Your task to perform on an android device: Search for vegetarian restaurants on Maps Image 0: 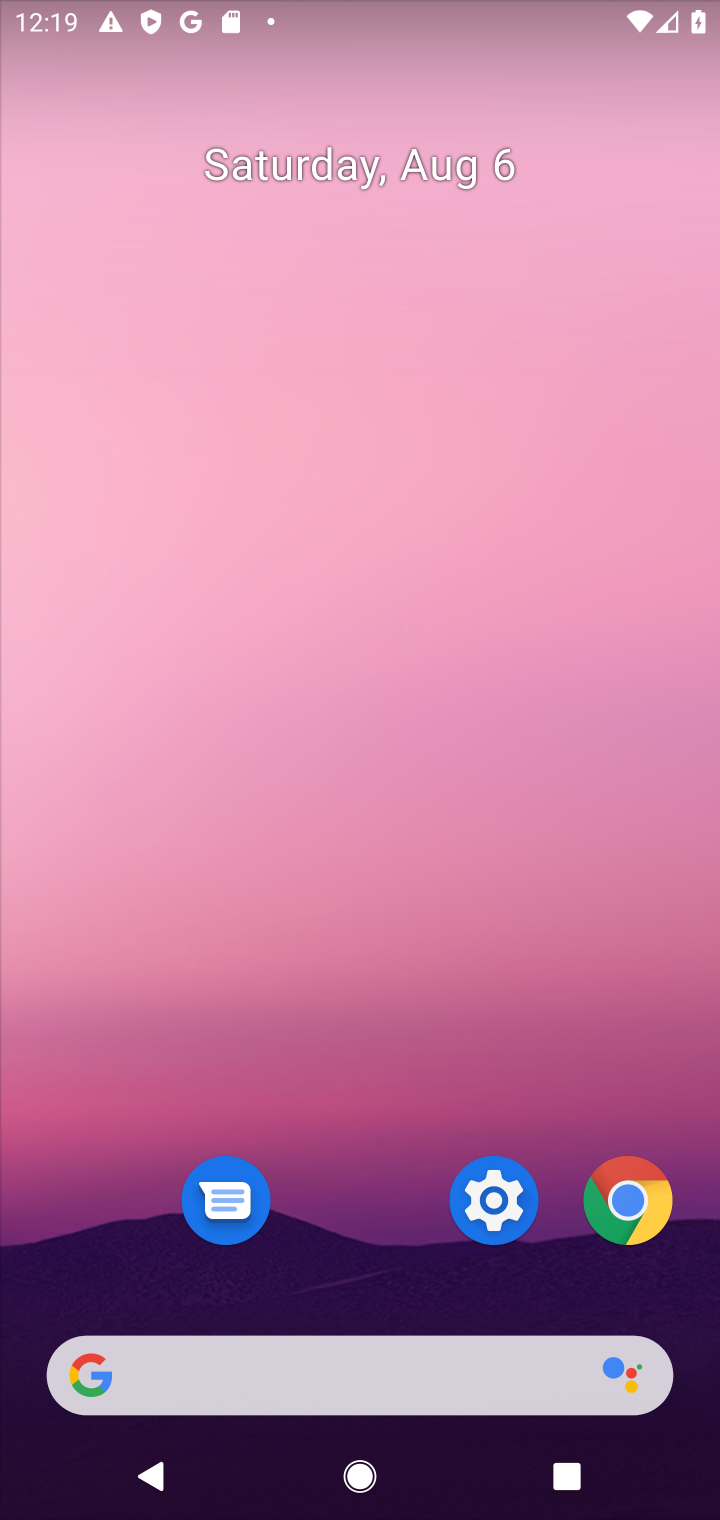
Step 0: drag from (526, 1447) to (390, 406)
Your task to perform on an android device: Search for vegetarian restaurants on Maps Image 1: 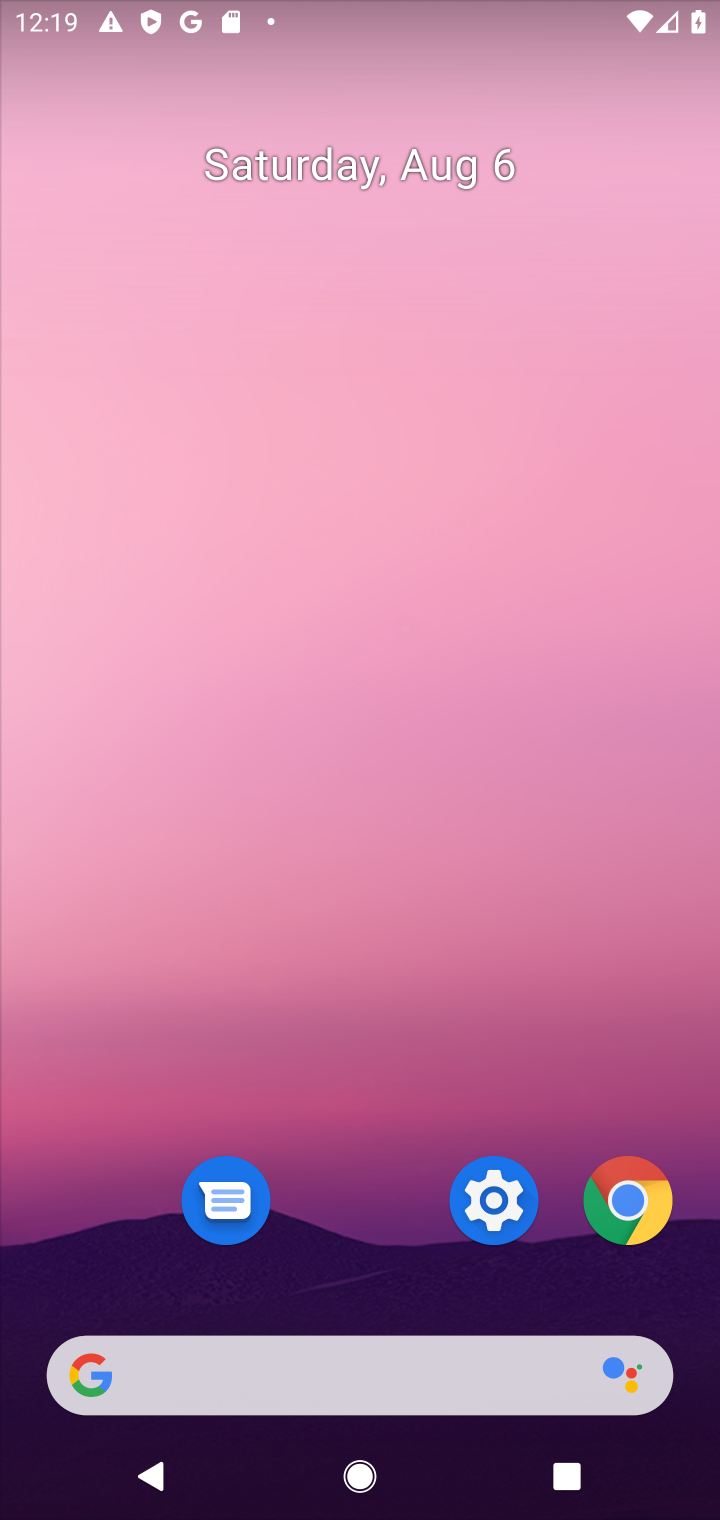
Step 1: click (383, 601)
Your task to perform on an android device: Search for vegetarian restaurants on Maps Image 2: 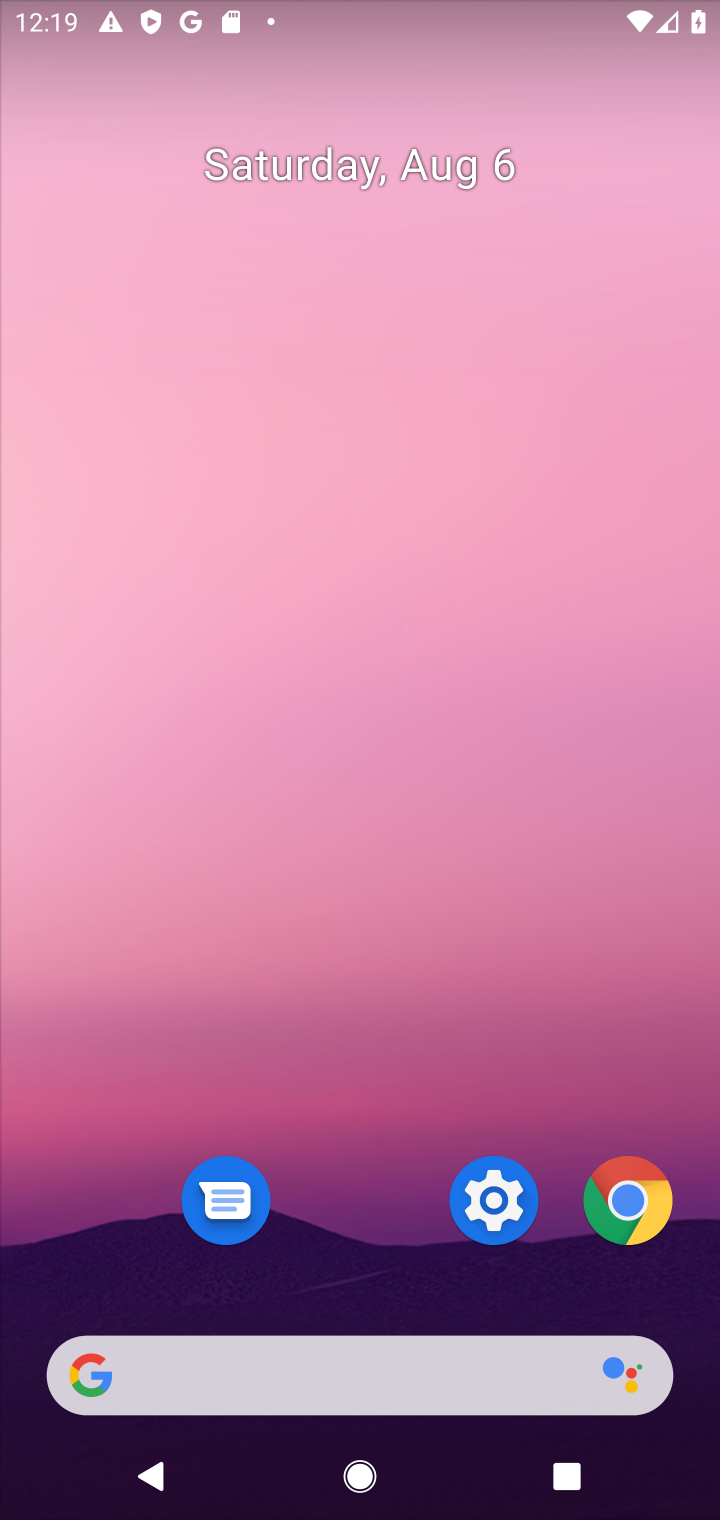
Step 2: drag from (297, 1281) to (381, 203)
Your task to perform on an android device: Search for vegetarian restaurants on Maps Image 3: 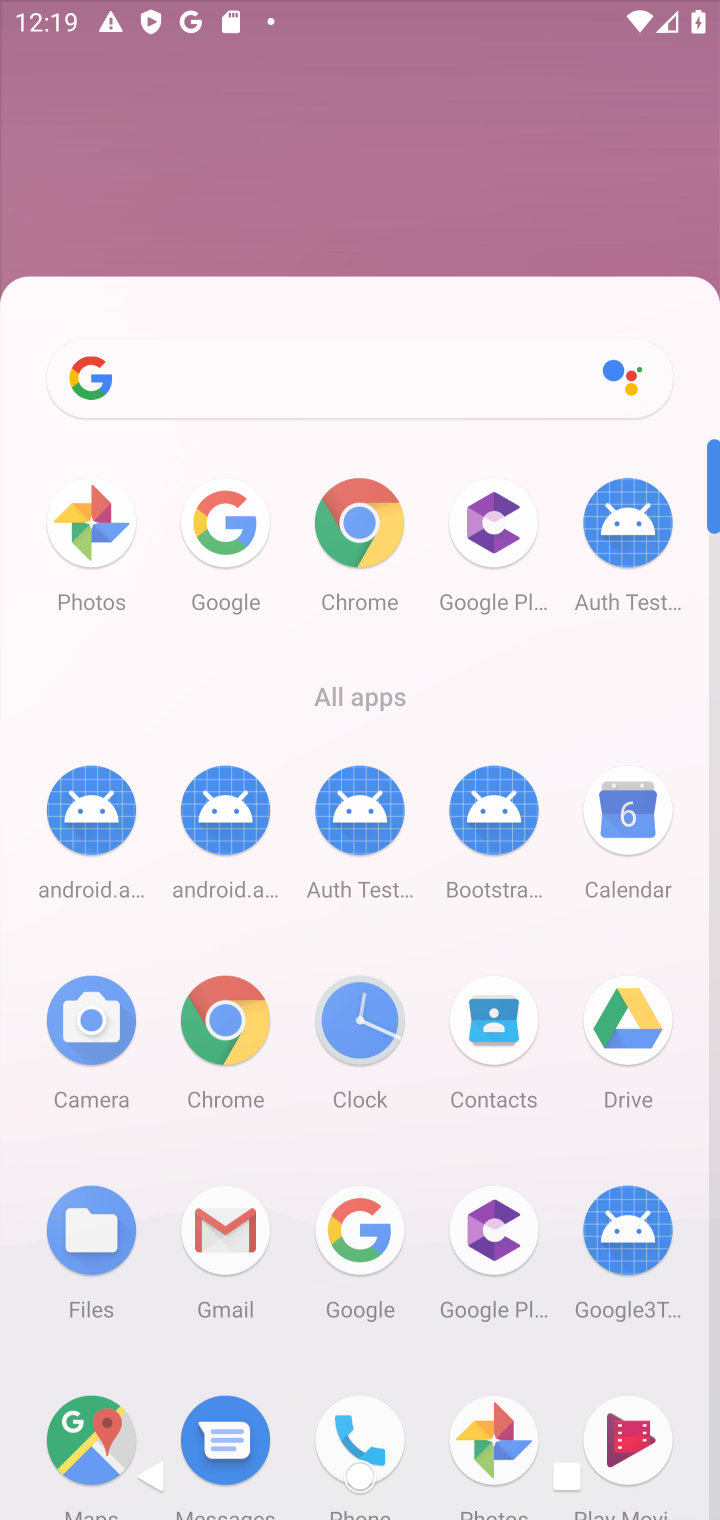
Step 3: drag from (273, 575) to (263, 442)
Your task to perform on an android device: Search for vegetarian restaurants on Maps Image 4: 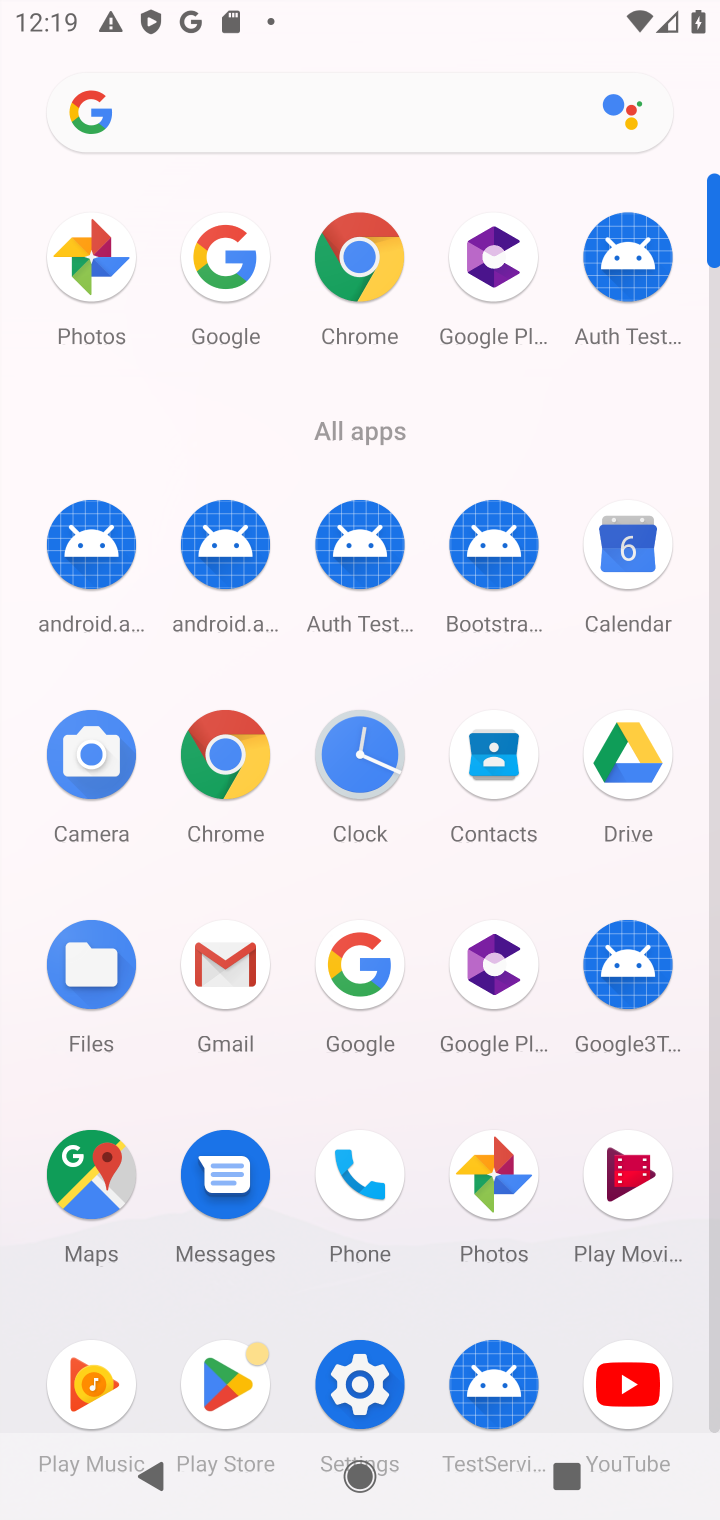
Step 4: click (91, 1155)
Your task to perform on an android device: Search for vegetarian restaurants on Maps Image 5: 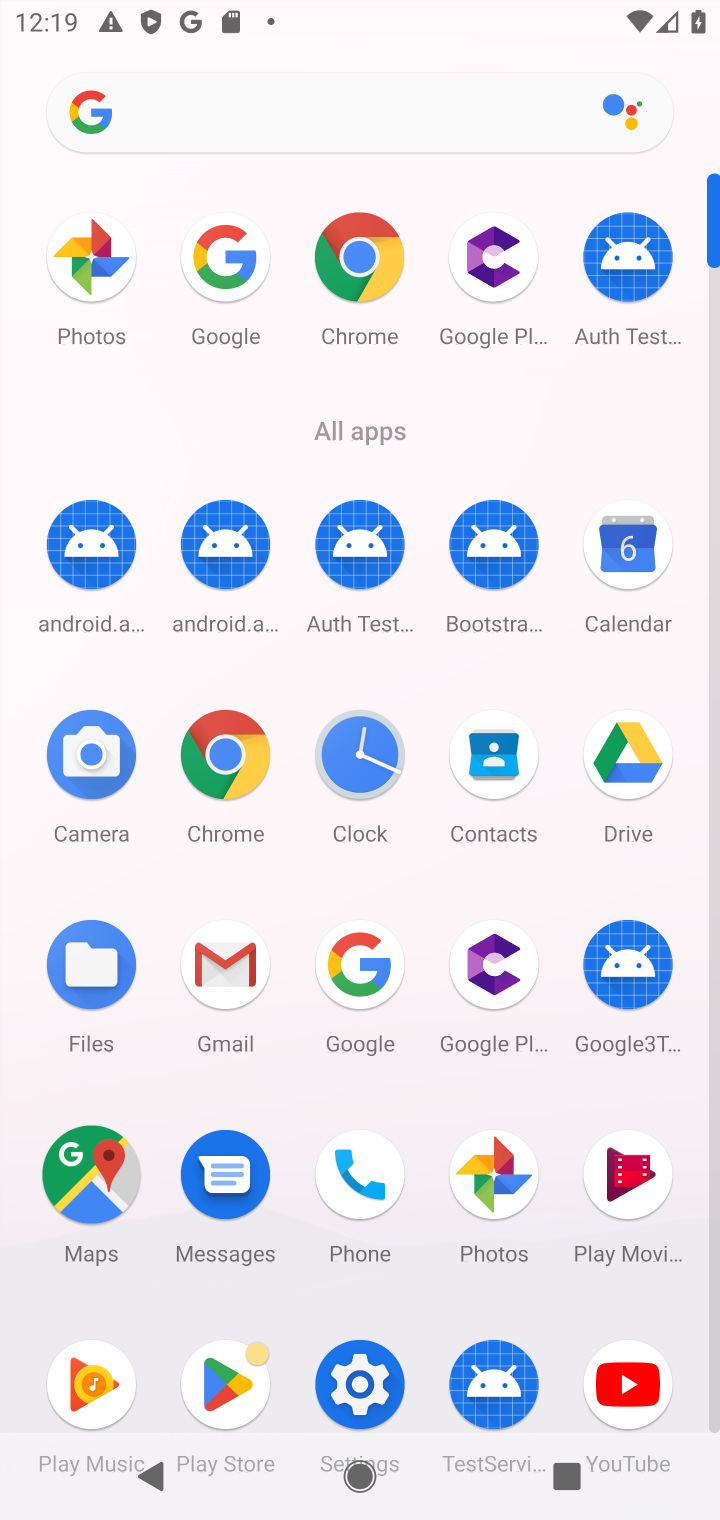
Step 5: click (117, 1213)
Your task to perform on an android device: Search for vegetarian restaurants on Maps Image 6: 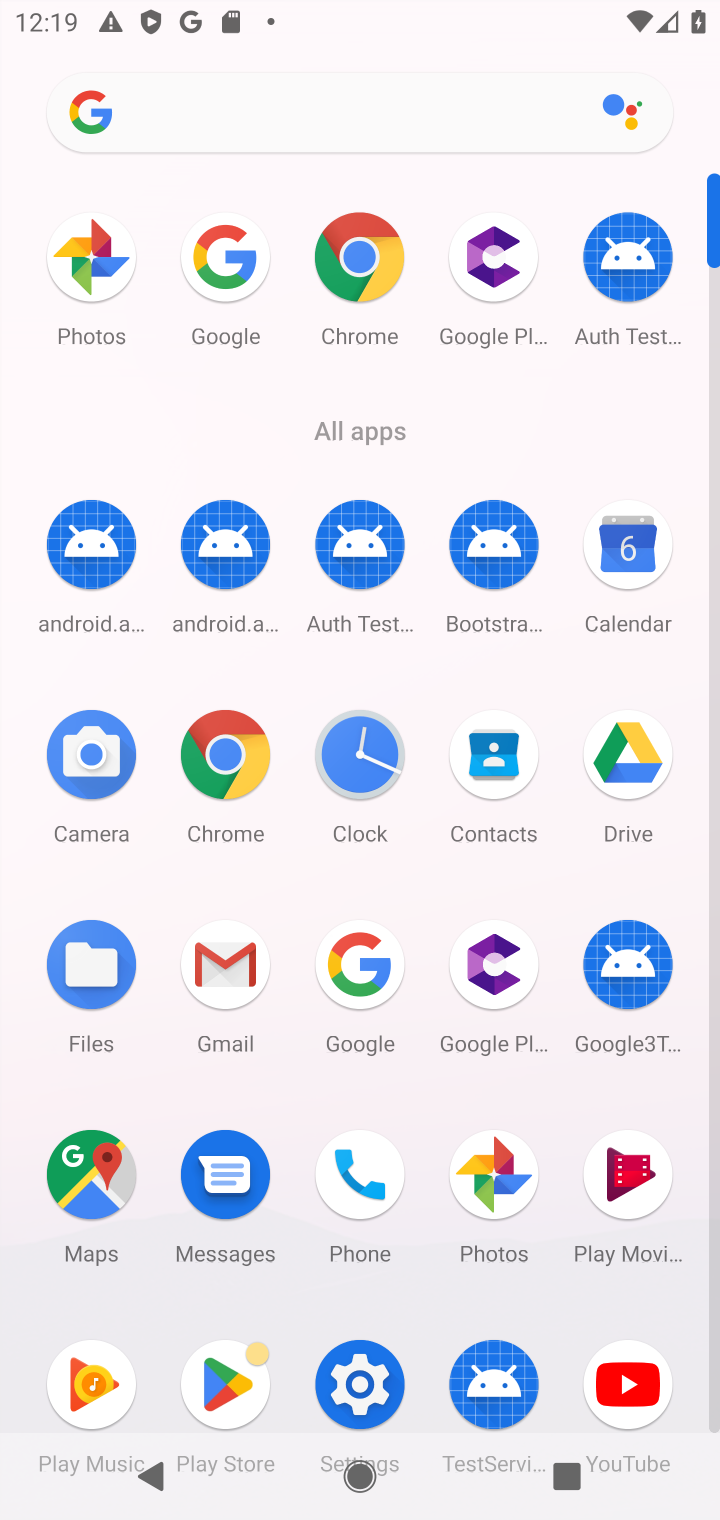
Step 6: click (64, 1172)
Your task to perform on an android device: Search for vegetarian restaurants on Maps Image 7: 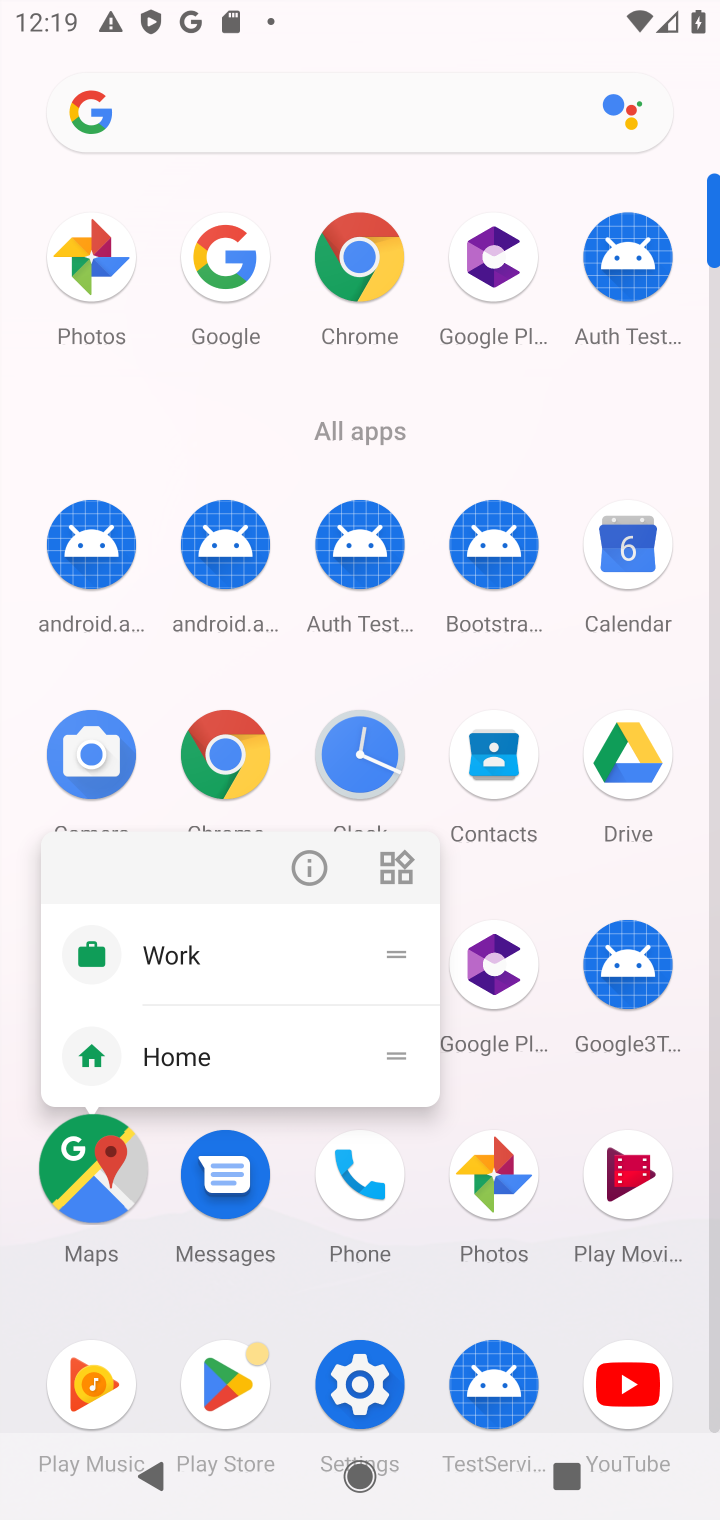
Step 7: click (61, 1166)
Your task to perform on an android device: Search for vegetarian restaurants on Maps Image 8: 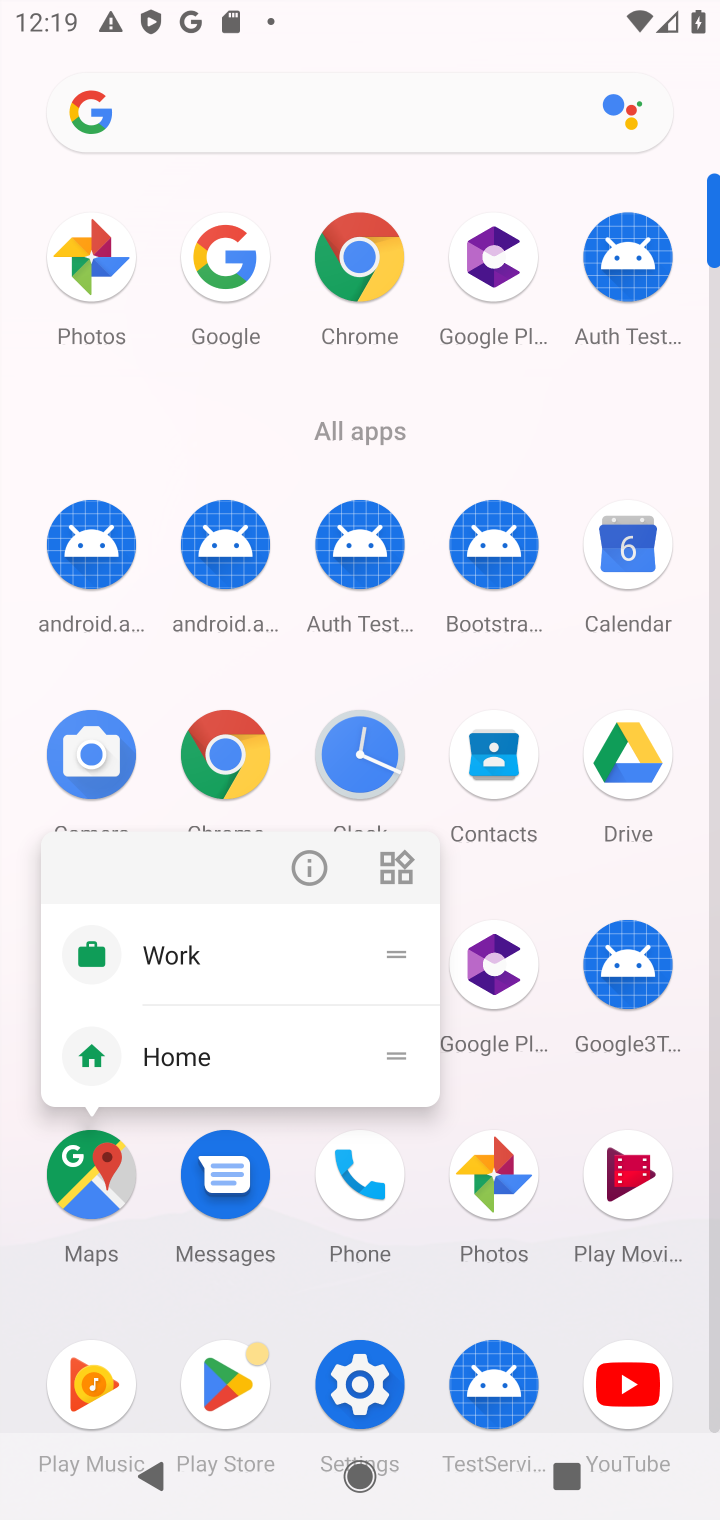
Step 8: drag from (93, 1155) to (130, 1245)
Your task to perform on an android device: Search for vegetarian restaurants on Maps Image 9: 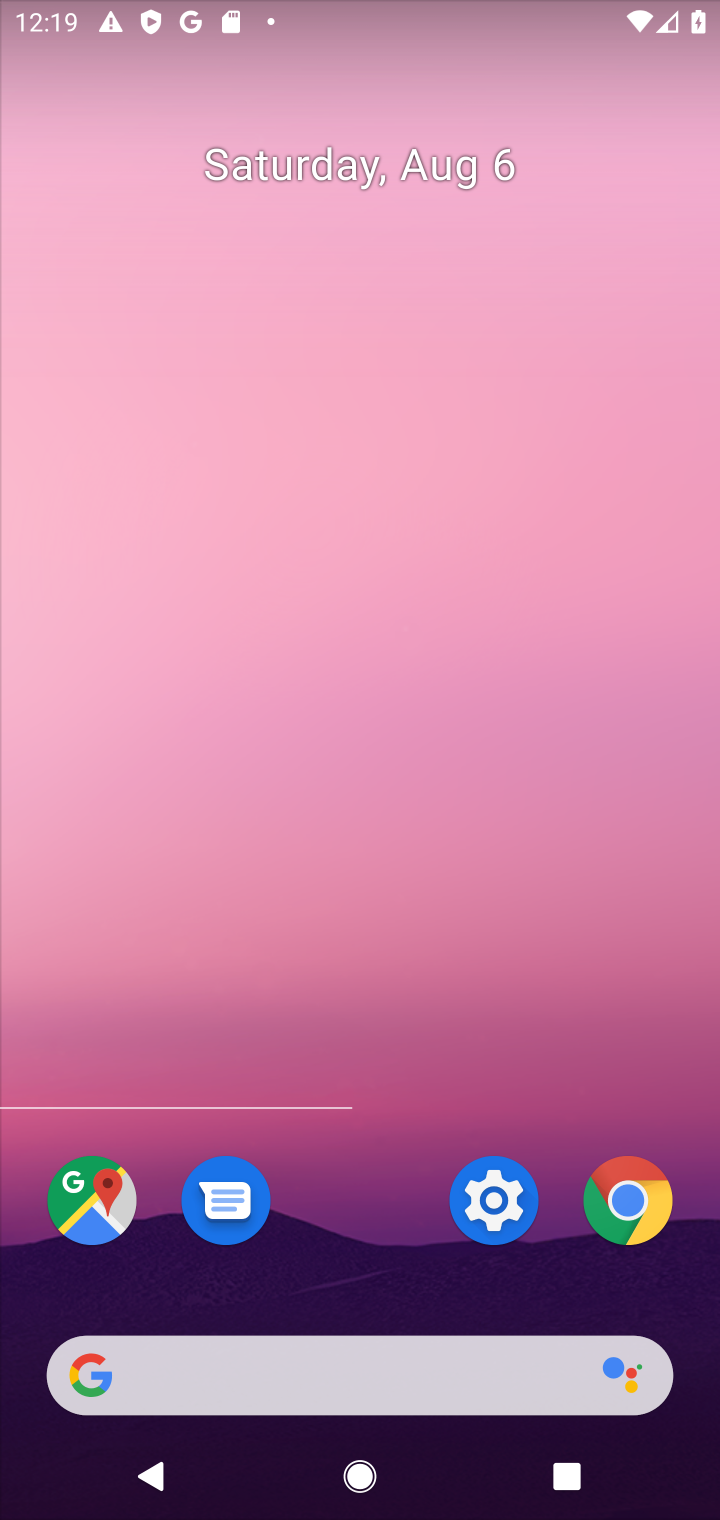
Step 9: press back button
Your task to perform on an android device: Search for vegetarian restaurants on Maps Image 10: 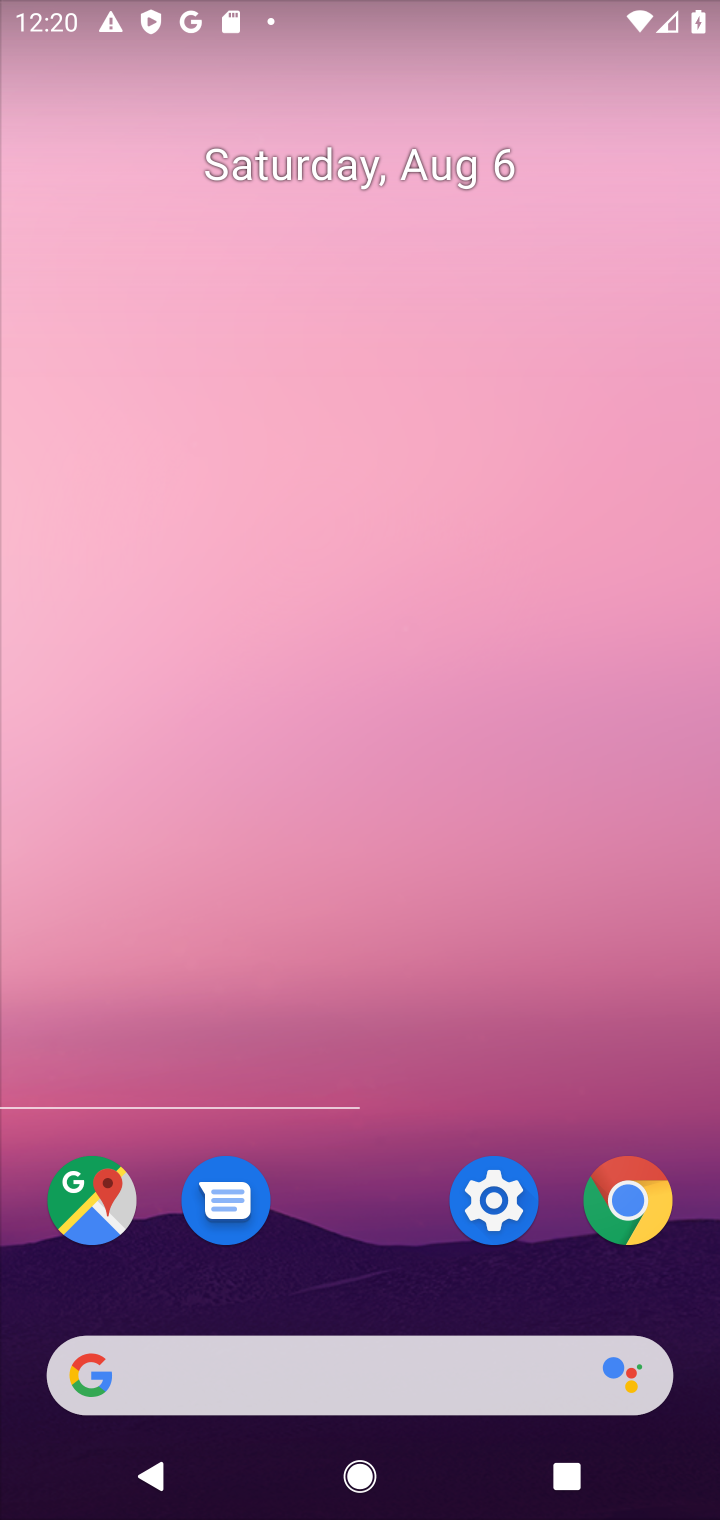
Step 10: click (135, 556)
Your task to perform on an android device: Search for vegetarian restaurants on Maps Image 11: 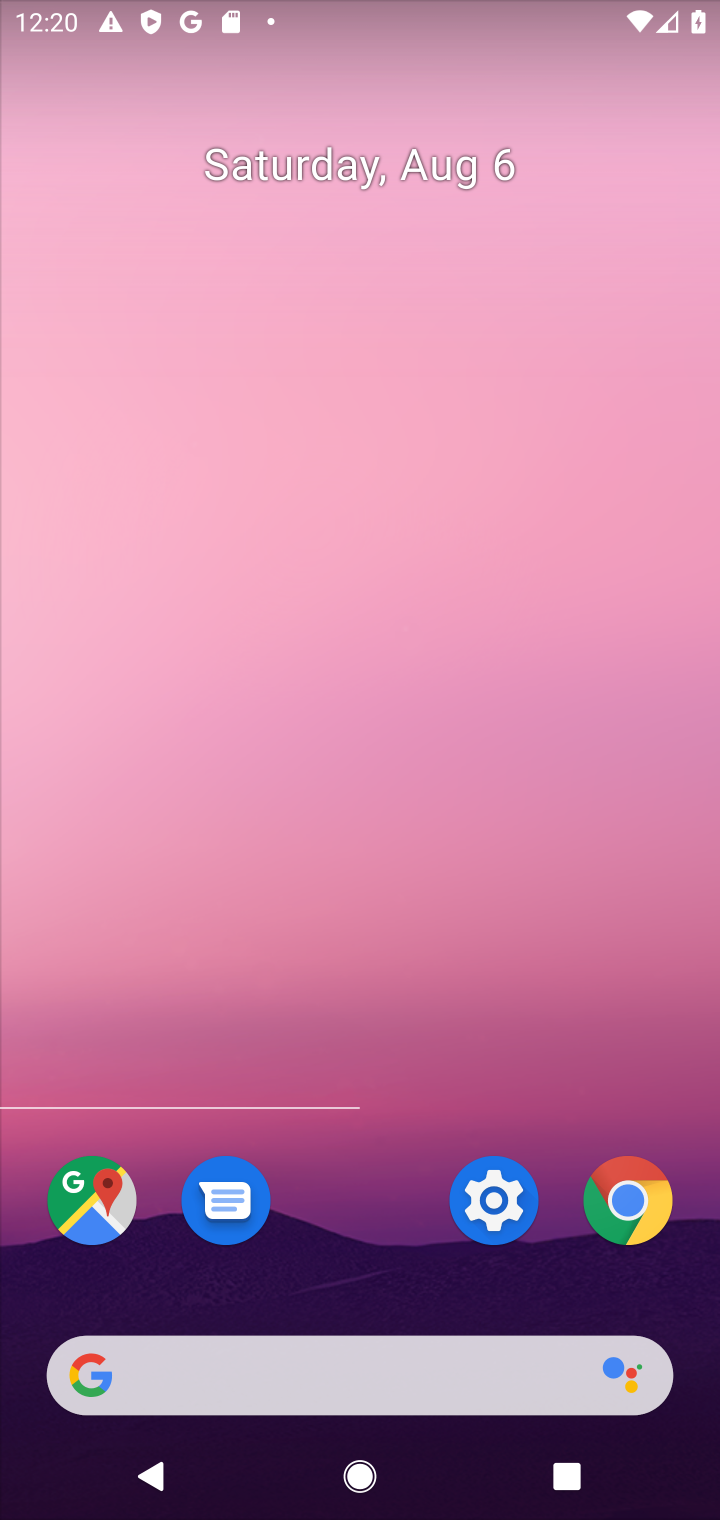
Step 11: drag from (413, 1279) to (299, 667)
Your task to perform on an android device: Search for vegetarian restaurants on Maps Image 12: 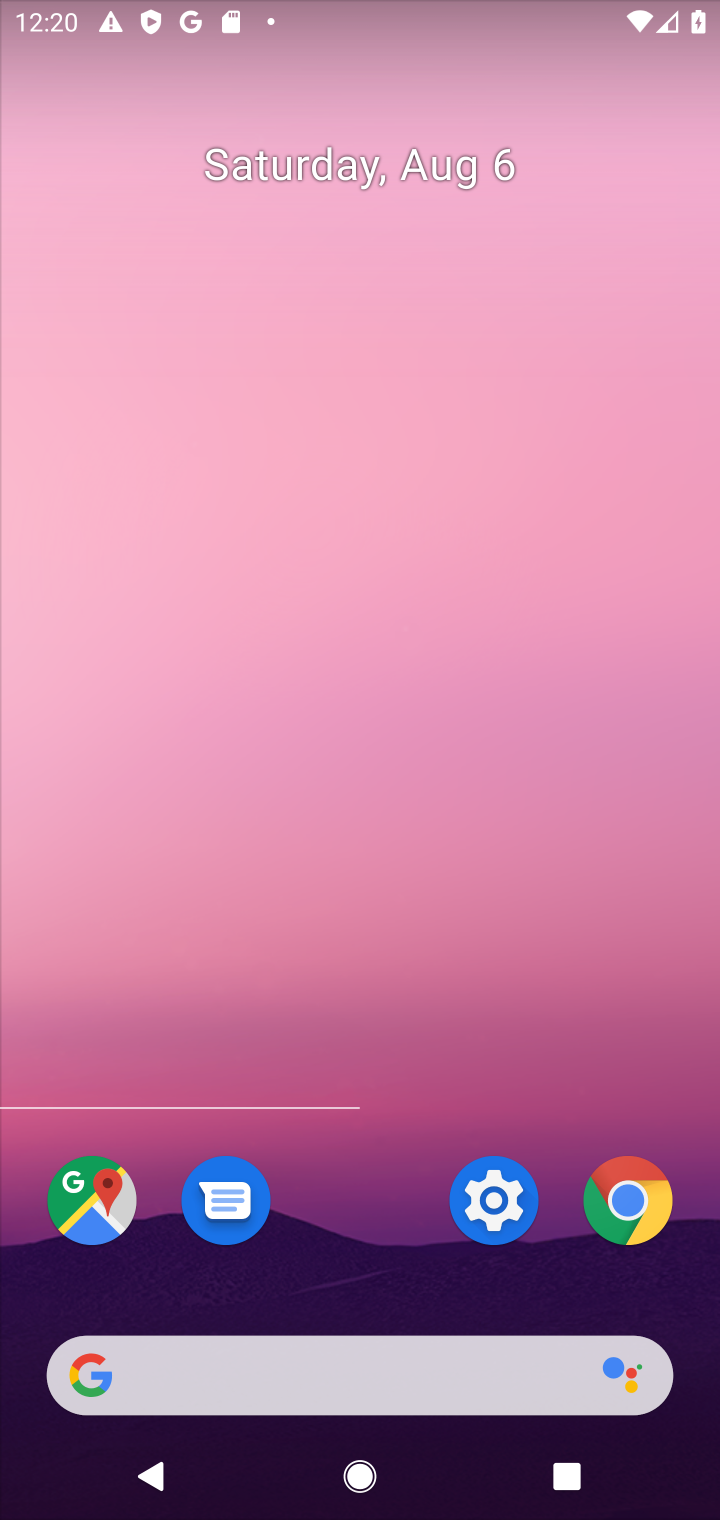
Step 12: drag from (280, 990) to (197, 240)
Your task to perform on an android device: Search for vegetarian restaurants on Maps Image 13: 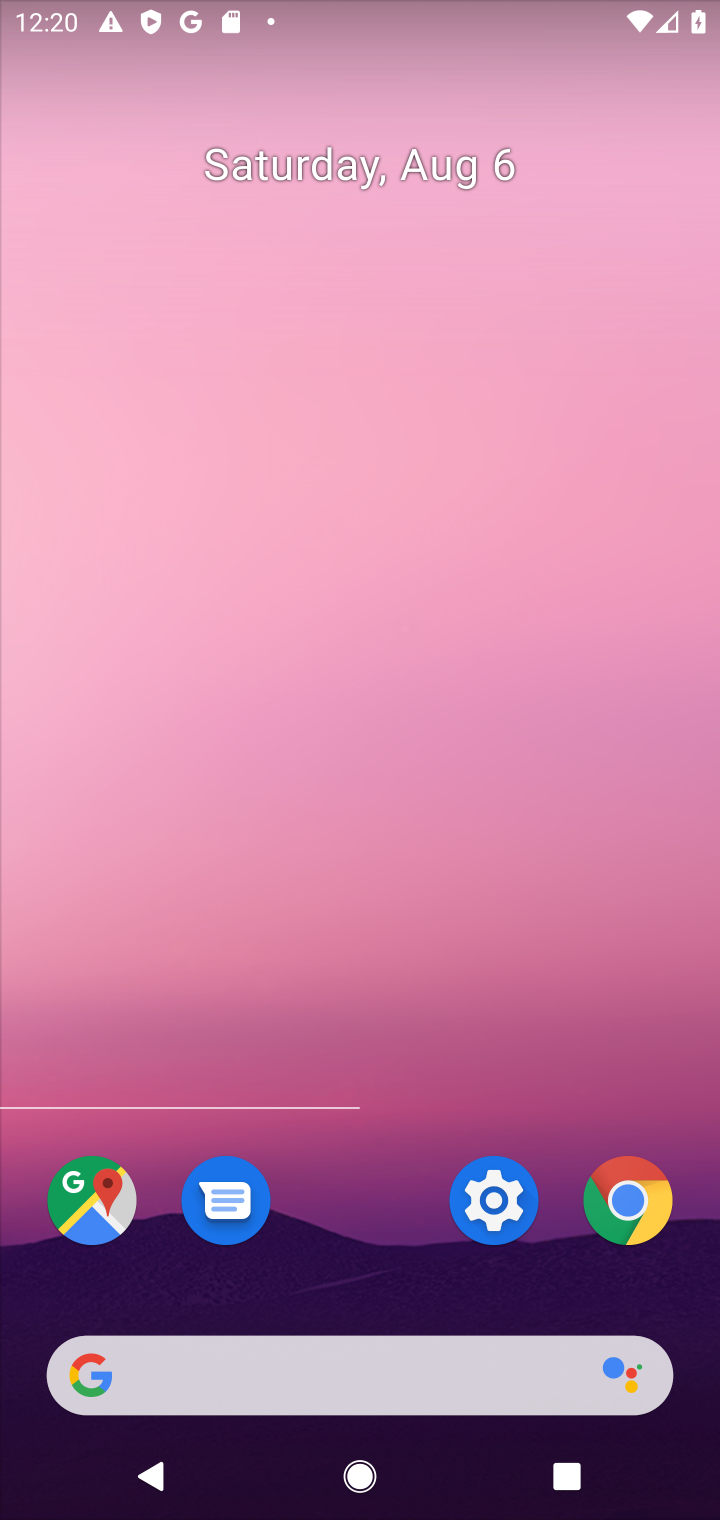
Step 13: click (191, 294)
Your task to perform on an android device: Search for vegetarian restaurants on Maps Image 14: 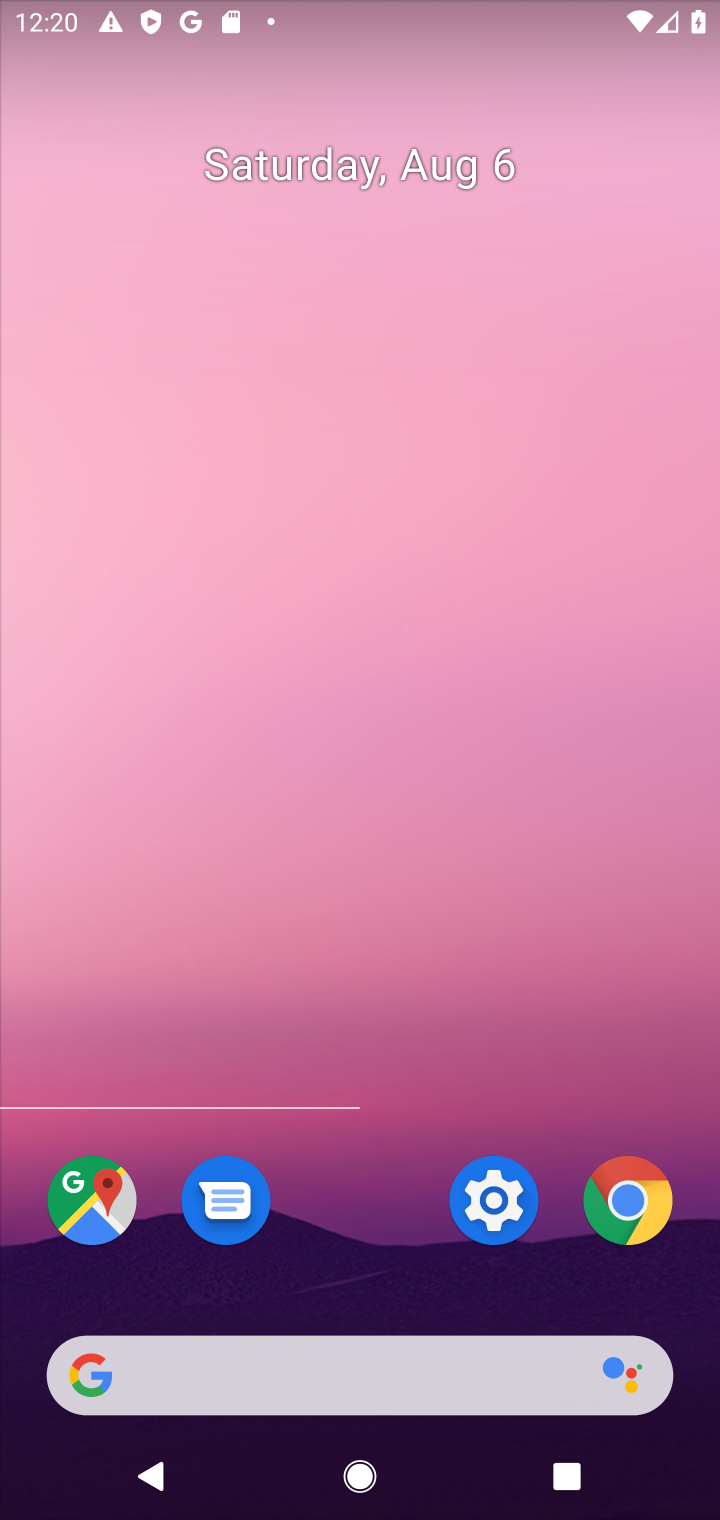
Step 14: drag from (259, 70) to (387, 163)
Your task to perform on an android device: Search for vegetarian restaurants on Maps Image 15: 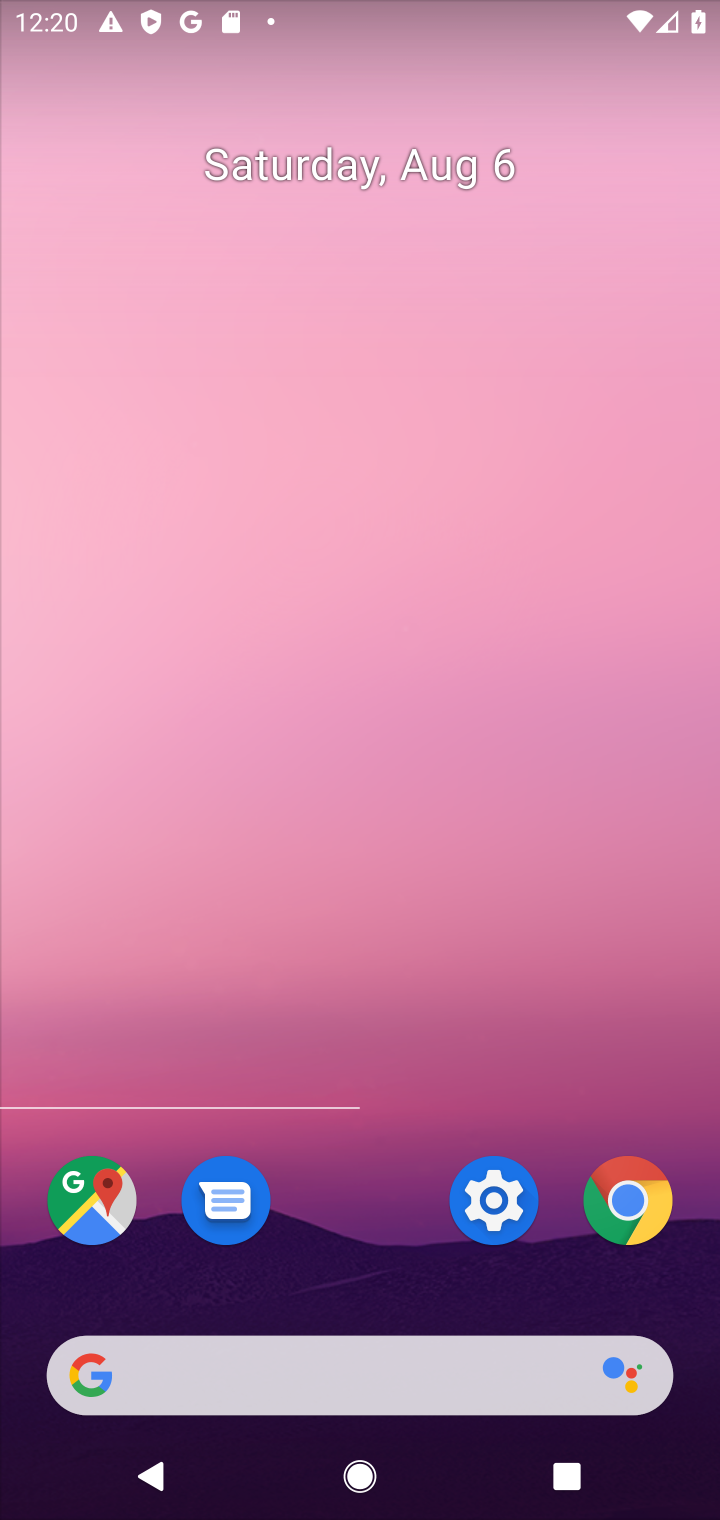
Step 15: drag from (225, 992) to (311, 111)
Your task to perform on an android device: Search for vegetarian restaurants on Maps Image 16: 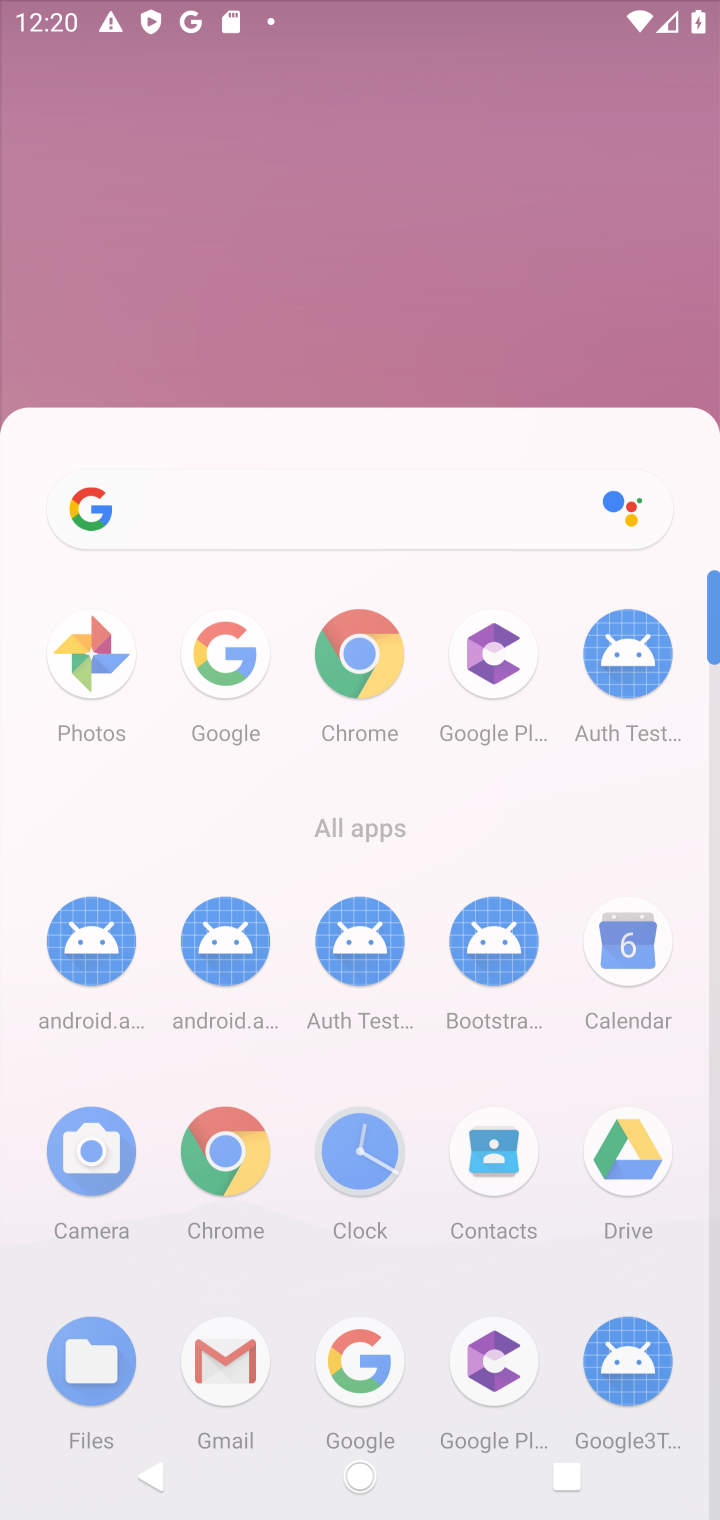
Step 16: drag from (311, 968) to (192, 380)
Your task to perform on an android device: Search for vegetarian restaurants on Maps Image 17: 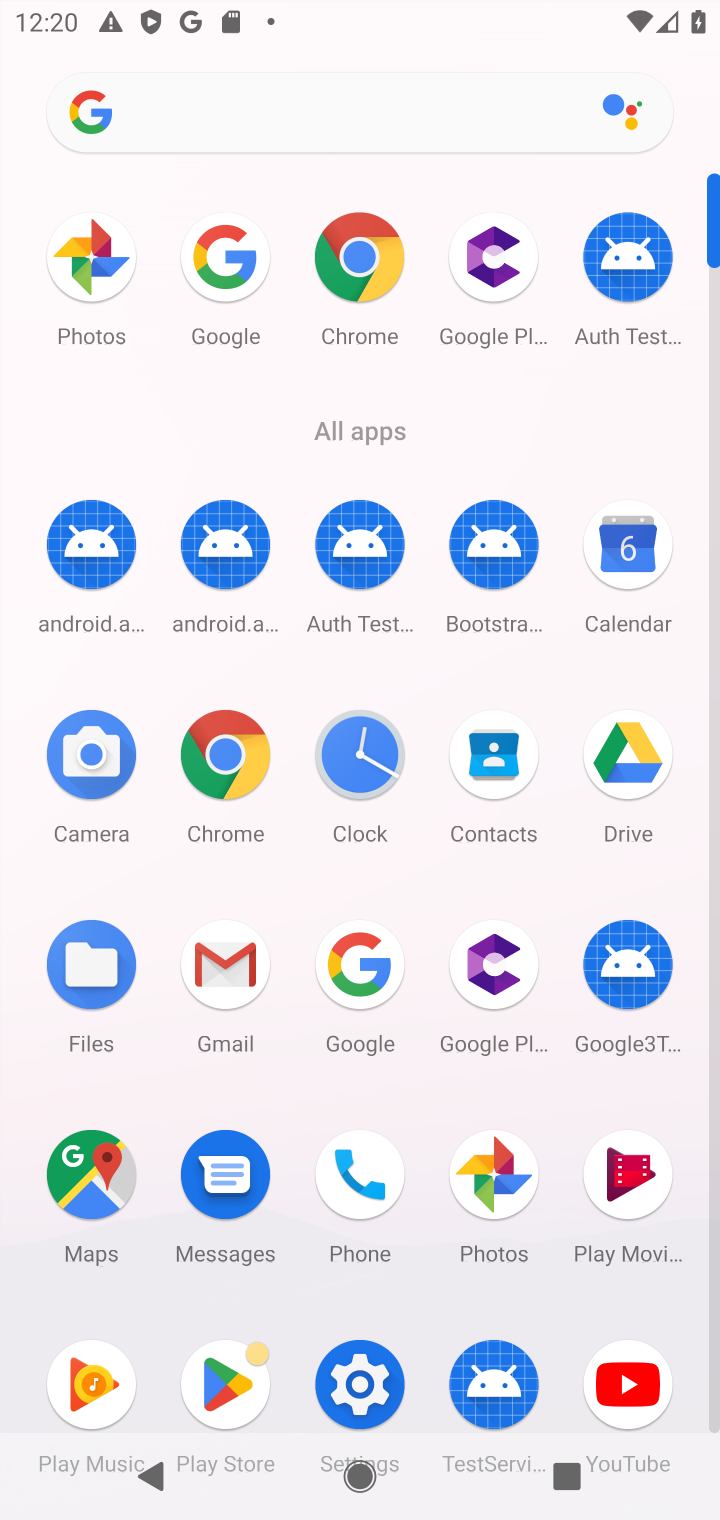
Step 17: click (125, 1186)
Your task to perform on an android device: Search for vegetarian restaurants on Maps Image 18: 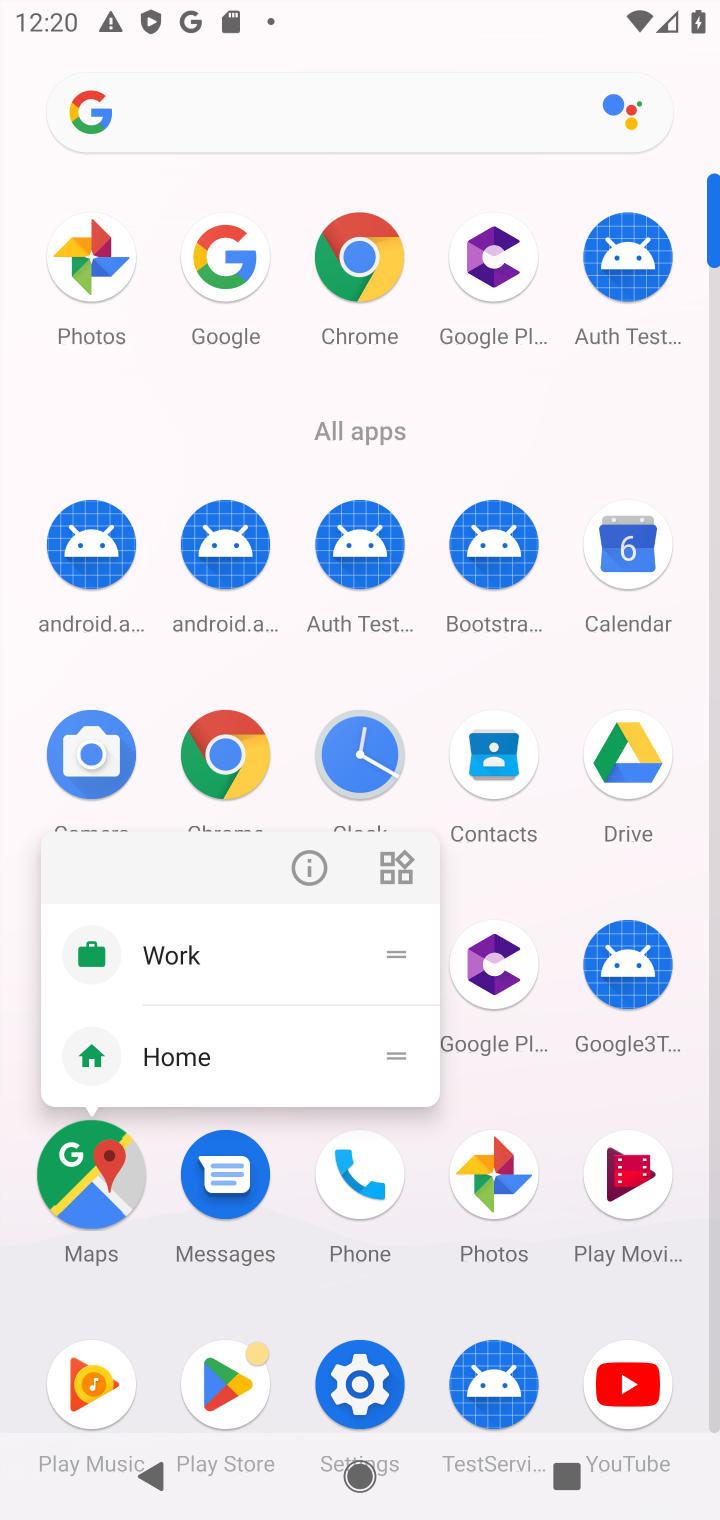
Step 18: click (110, 1177)
Your task to perform on an android device: Search for vegetarian restaurants on Maps Image 19: 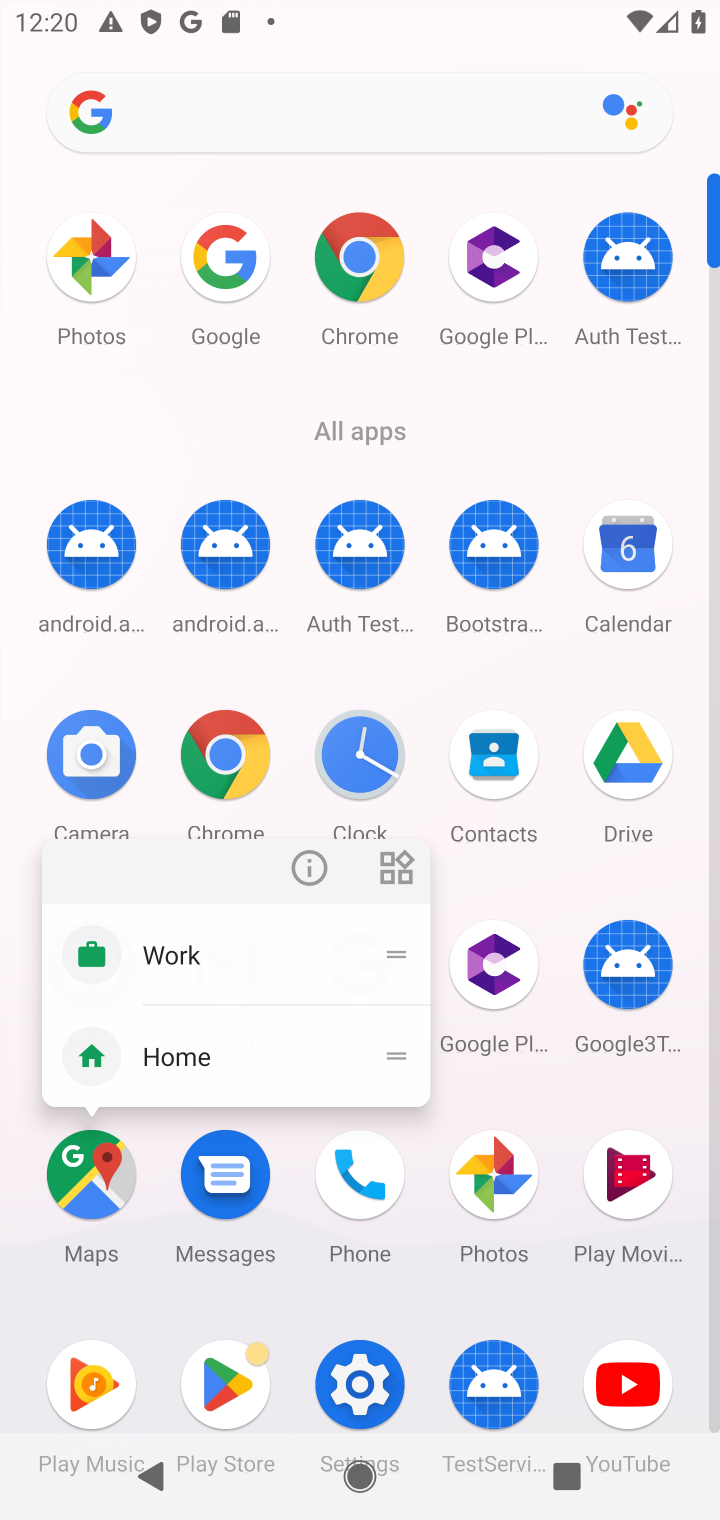
Step 19: click (110, 1177)
Your task to perform on an android device: Search for vegetarian restaurants on Maps Image 20: 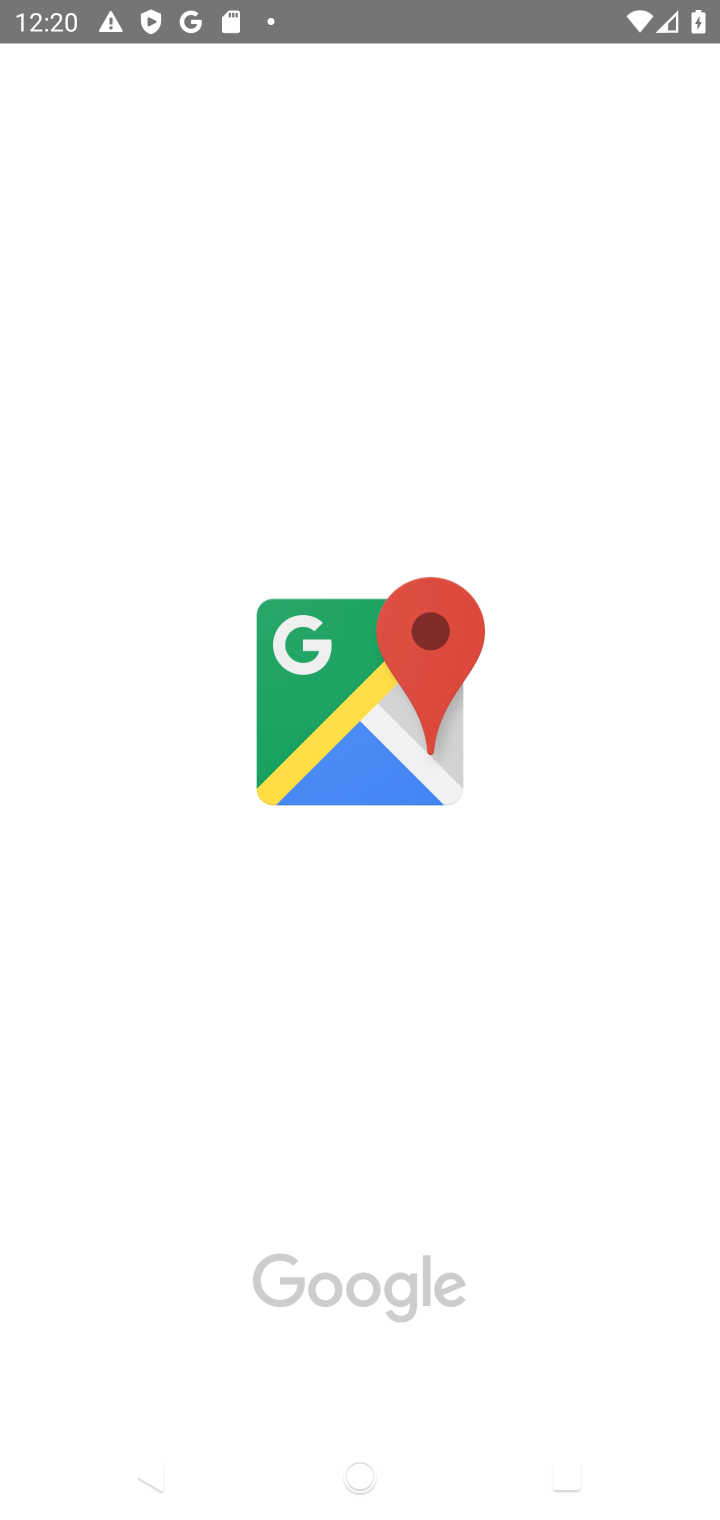
Step 20: click (102, 1184)
Your task to perform on an android device: Search for vegetarian restaurants on Maps Image 21: 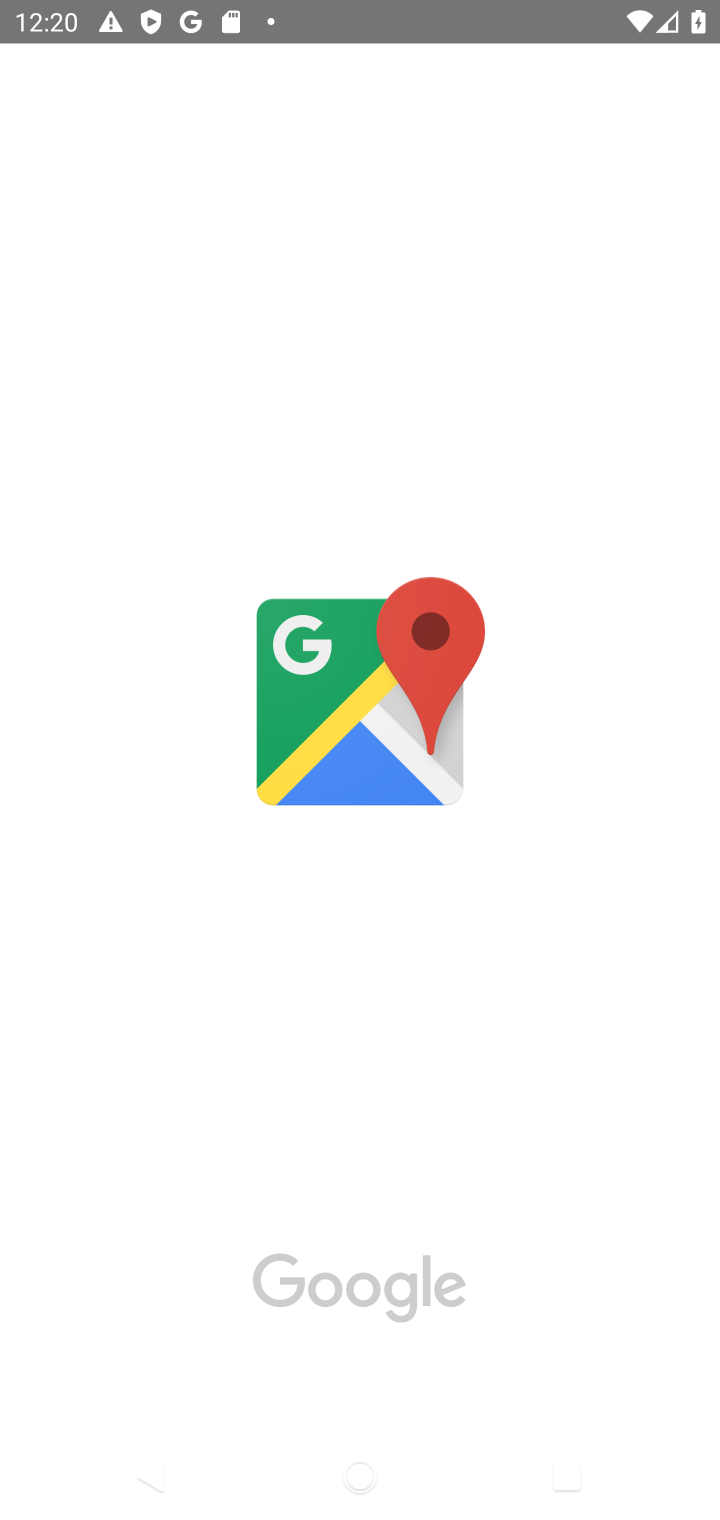
Step 21: click (352, 723)
Your task to perform on an android device: Search for vegetarian restaurants on Maps Image 22: 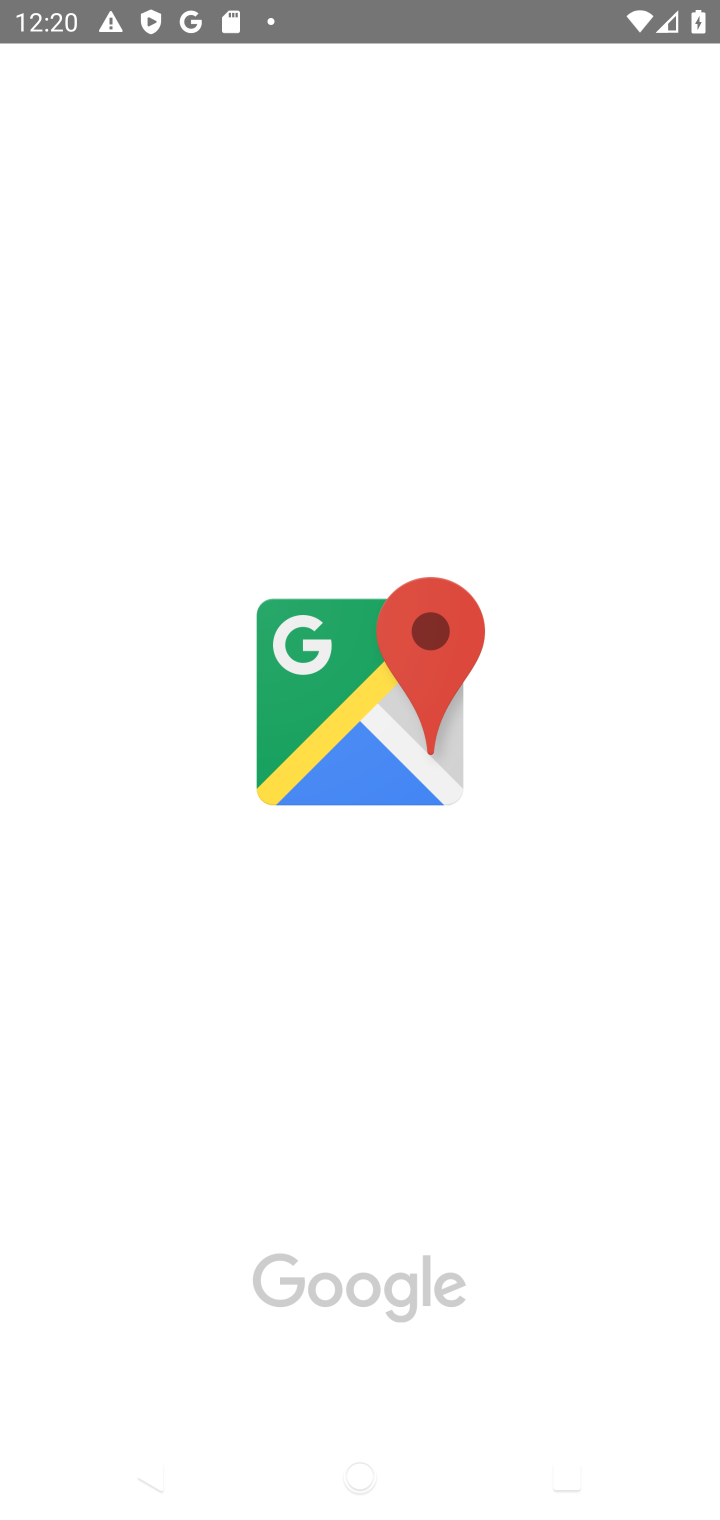
Step 22: click (380, 684)
Your task to perform on an android device: Search for vegetarian restaurants on Maps Image 23: 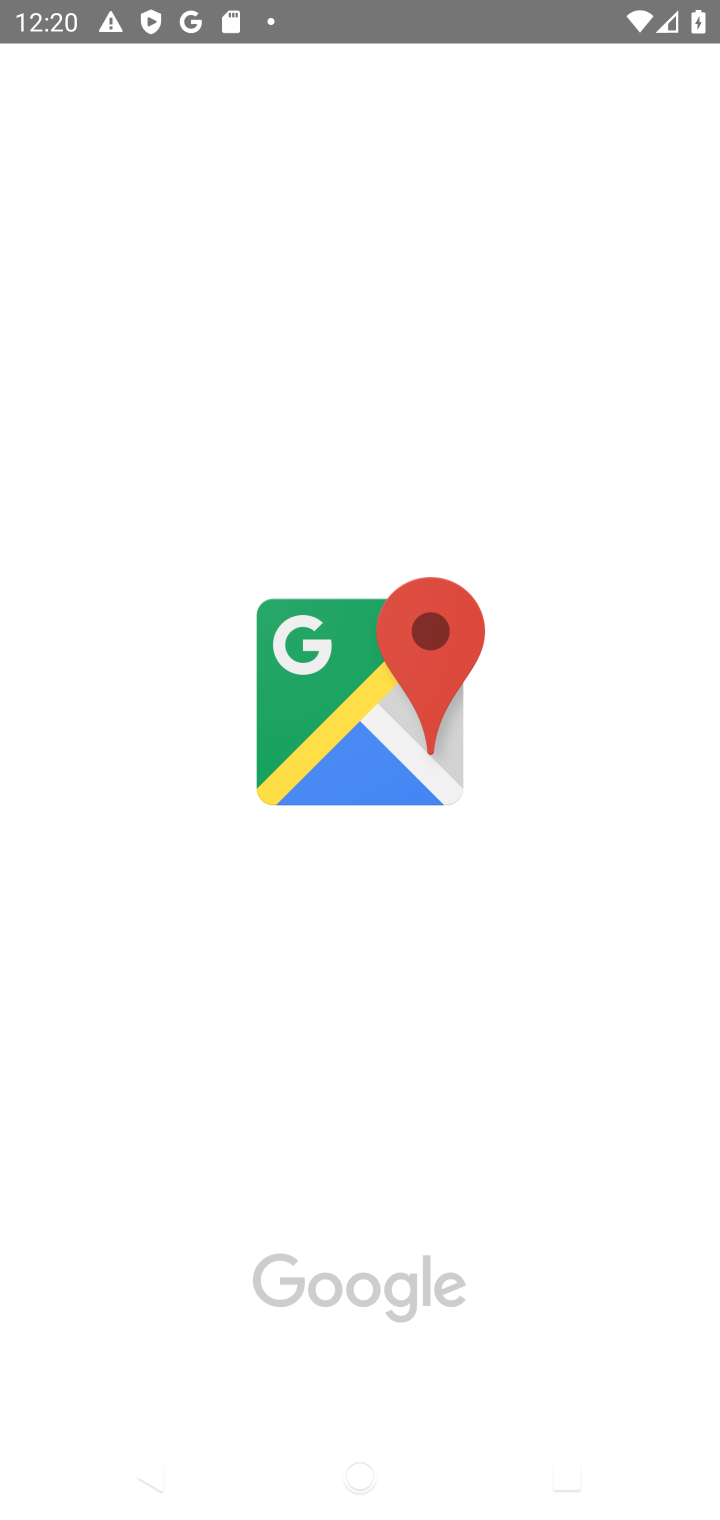
Step 23: click (380, 684)
Your task to perform on an android device: Search for vegetarian restaurants on Maps Image 24: 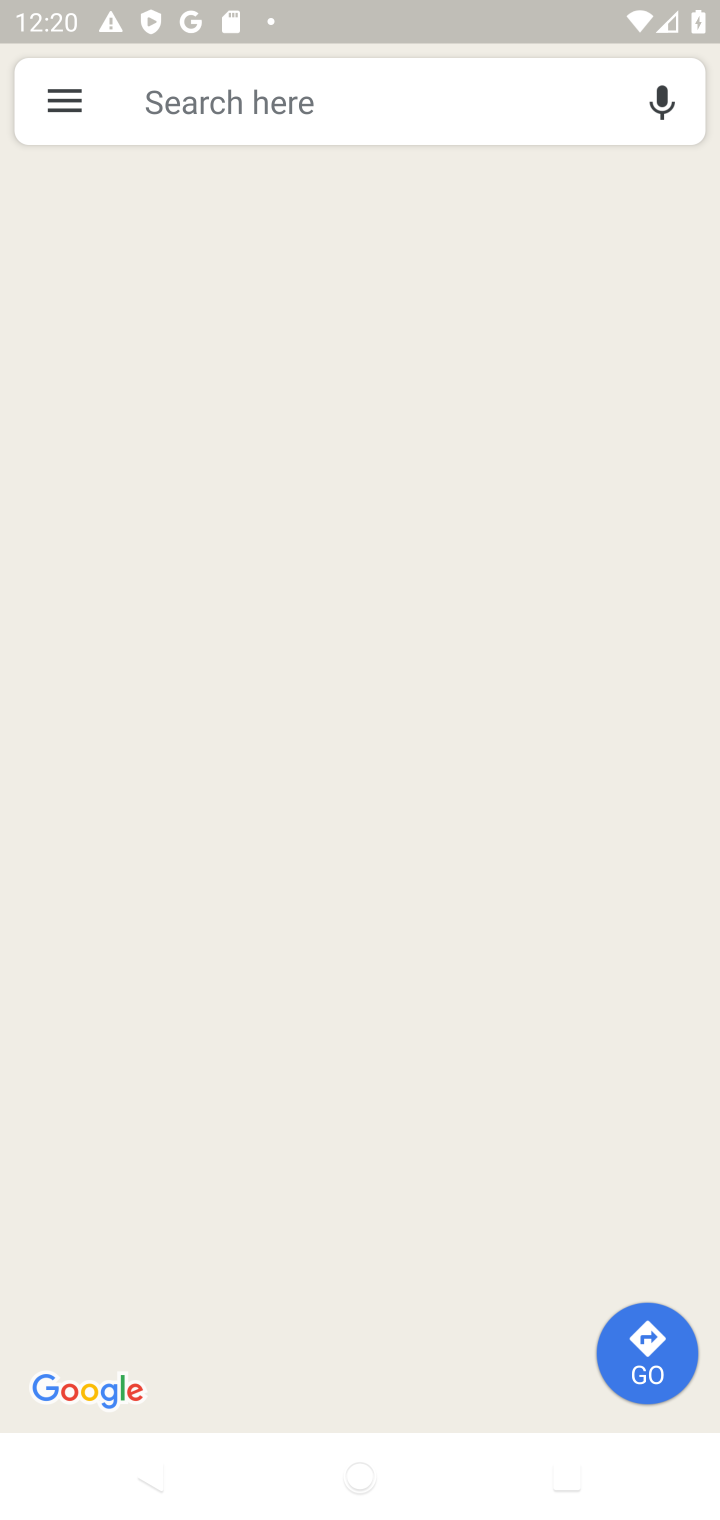
Step 24: click (410, 677)
Your task to perform on an android device: Search for vegetarian restaurants on Maps Image 25: 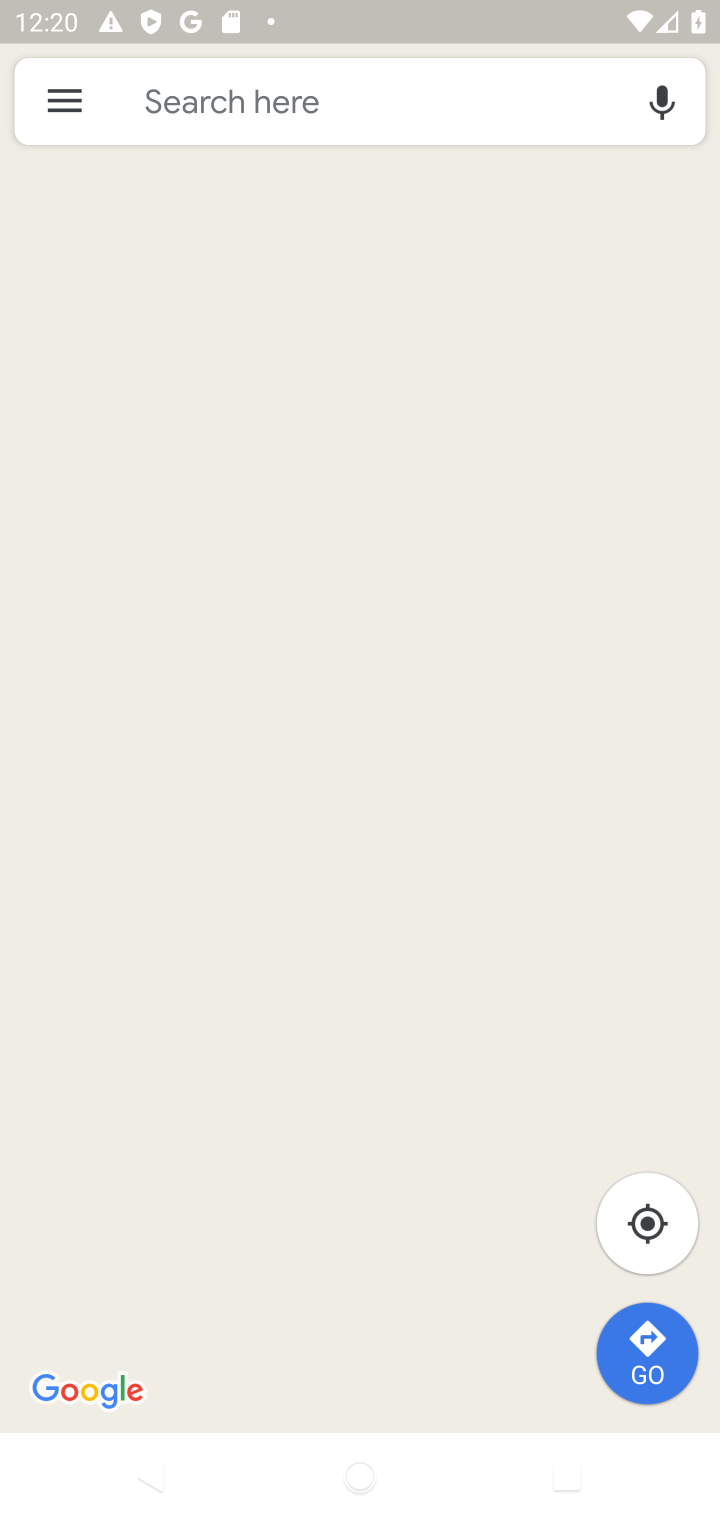
Step 25: click (268, 95)
Your task to perform on an android device: Search for vegetarian restaurants on Maps Image 26: 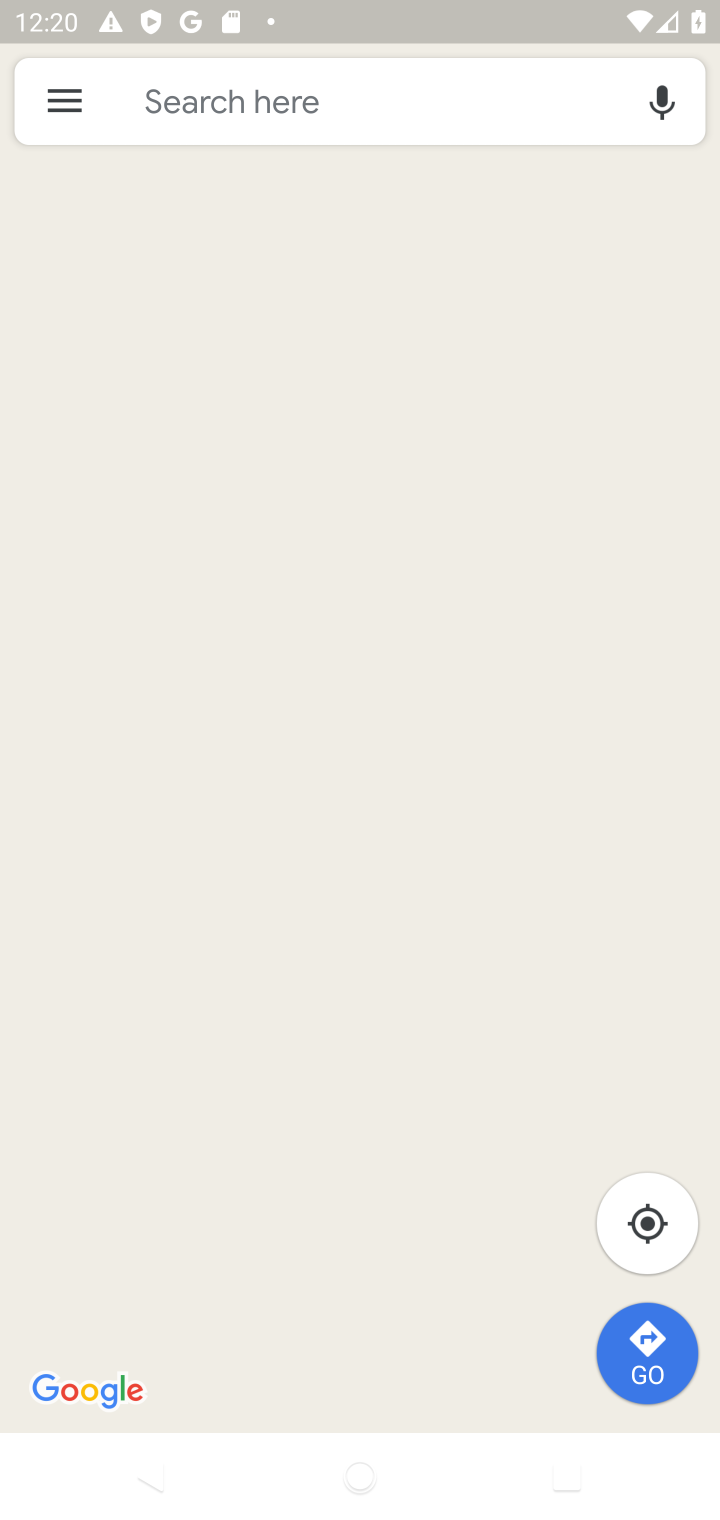
Step 26: click (268, 95)
Your task to perform on an android device: Search for vegetarian restaurants on Maps Image 27: 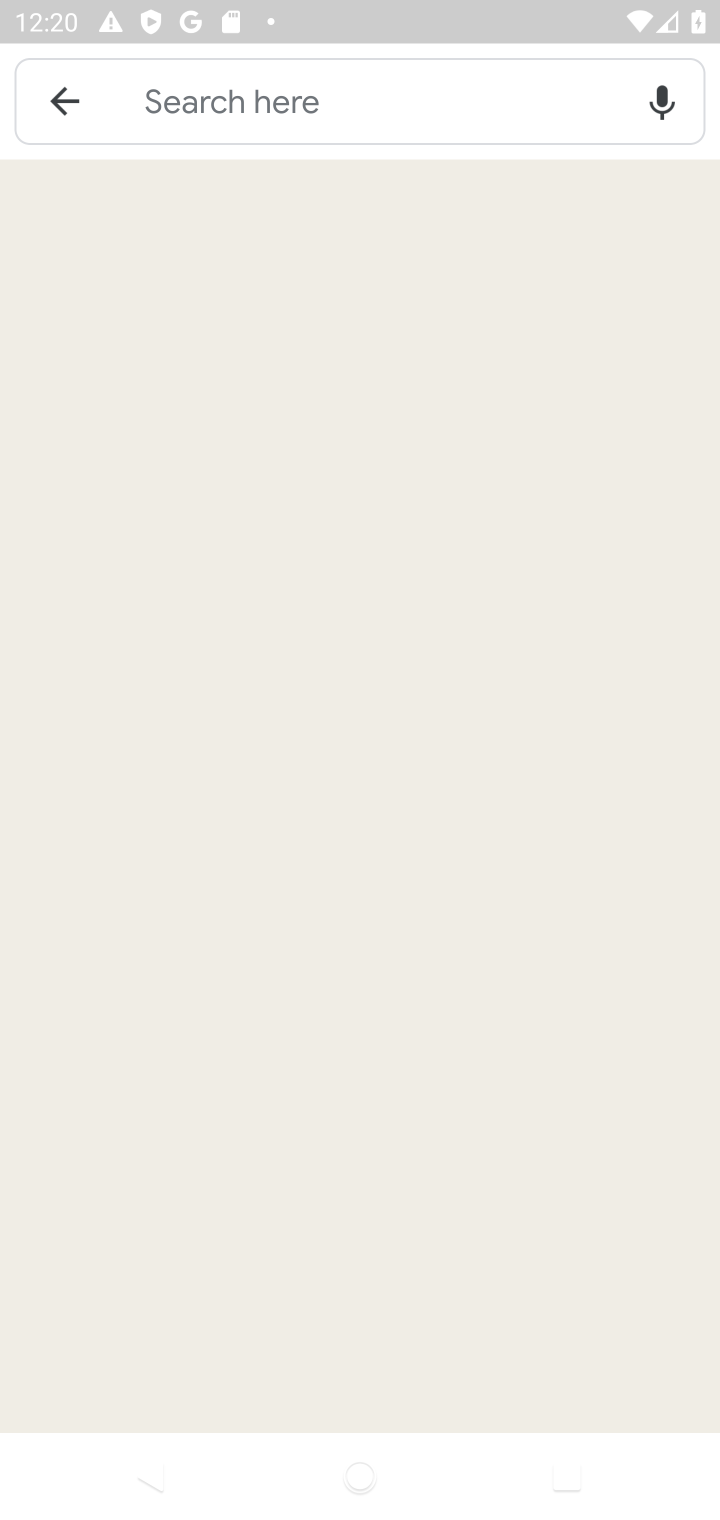
Step 27: click (145, 107)
Your task to perform on an android device: Search for vegetarian restaurants on Maps Image 28: 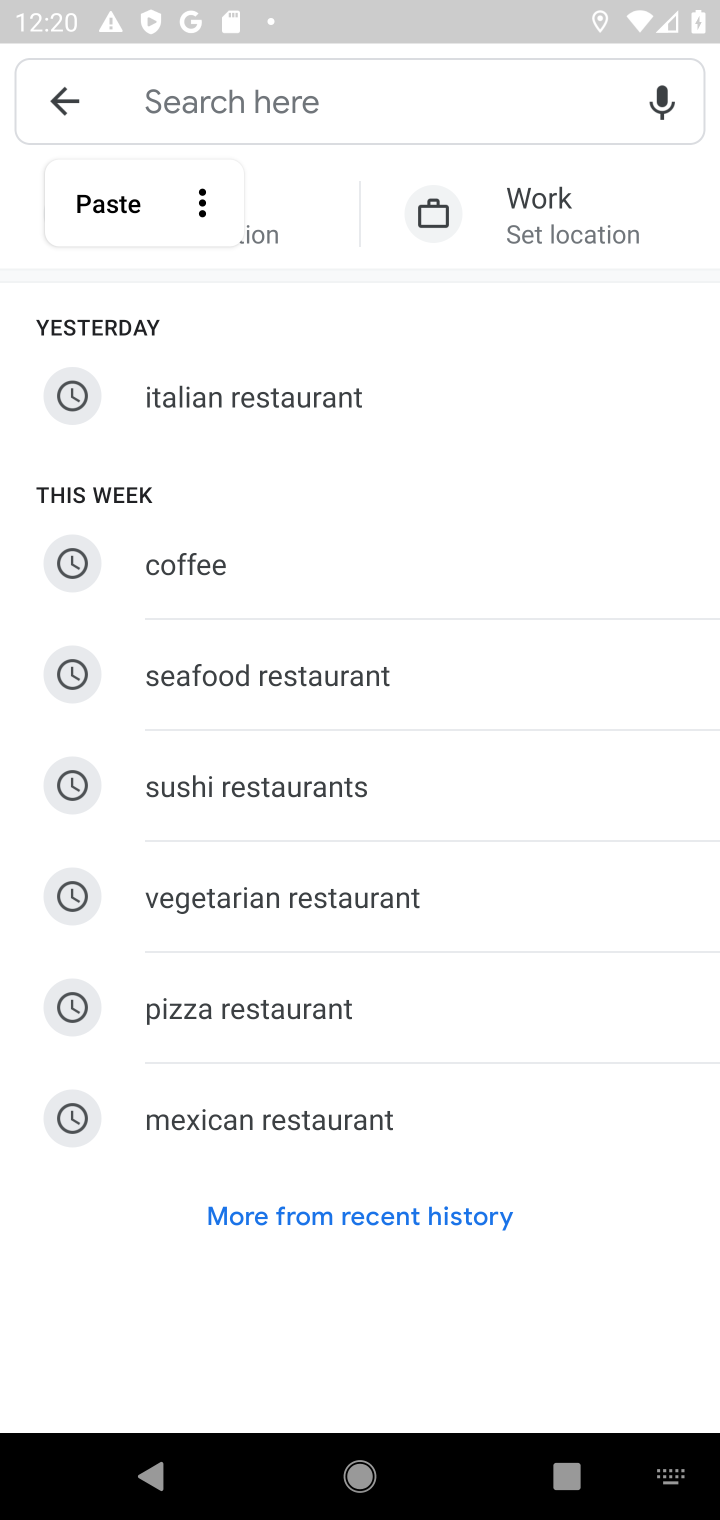
Step 28: click (248, 894)
Your task to perform on an android device: Search for vegetarian restaurants on Maps Image 29: 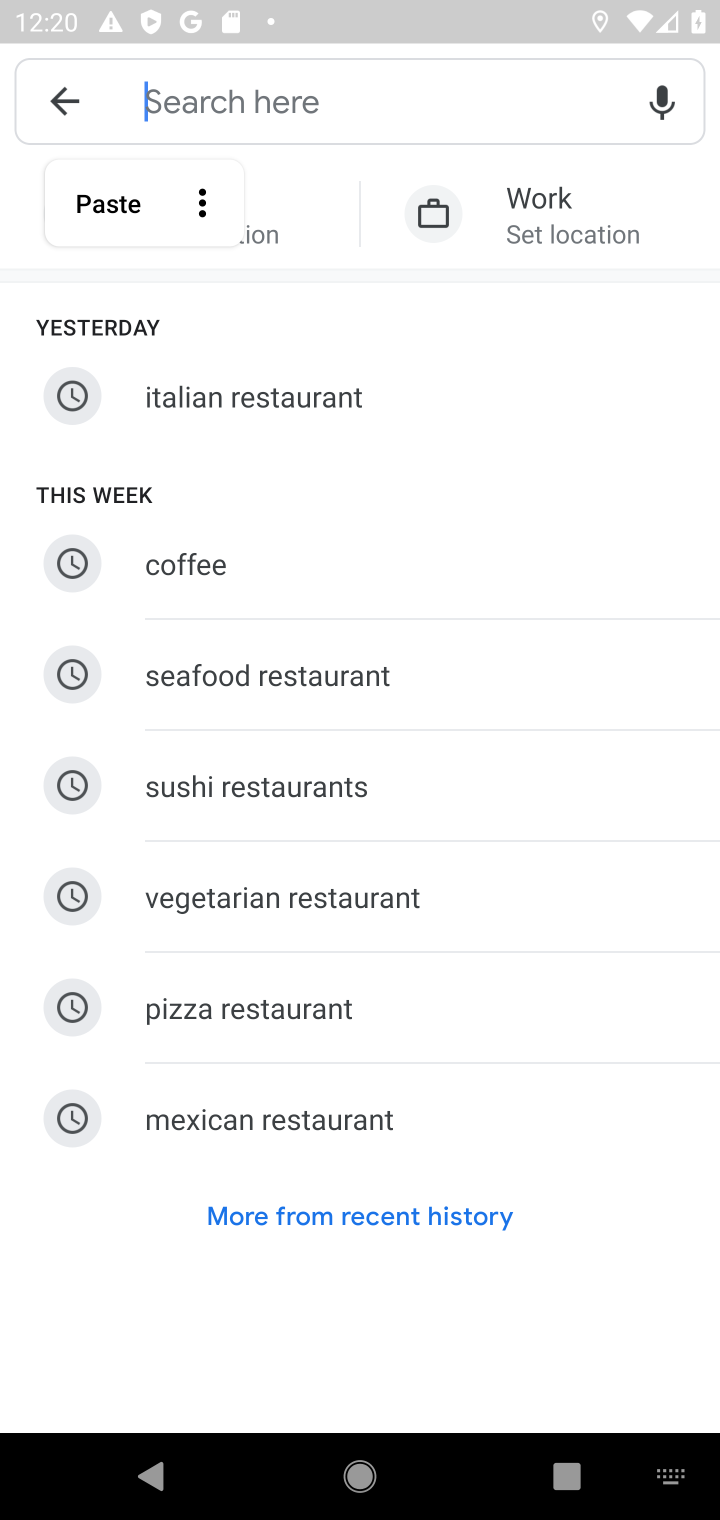
Step 29: click (248, 894)
Your task to perform on an android device: Search for vegetarian restaurants on Maps Image 30: 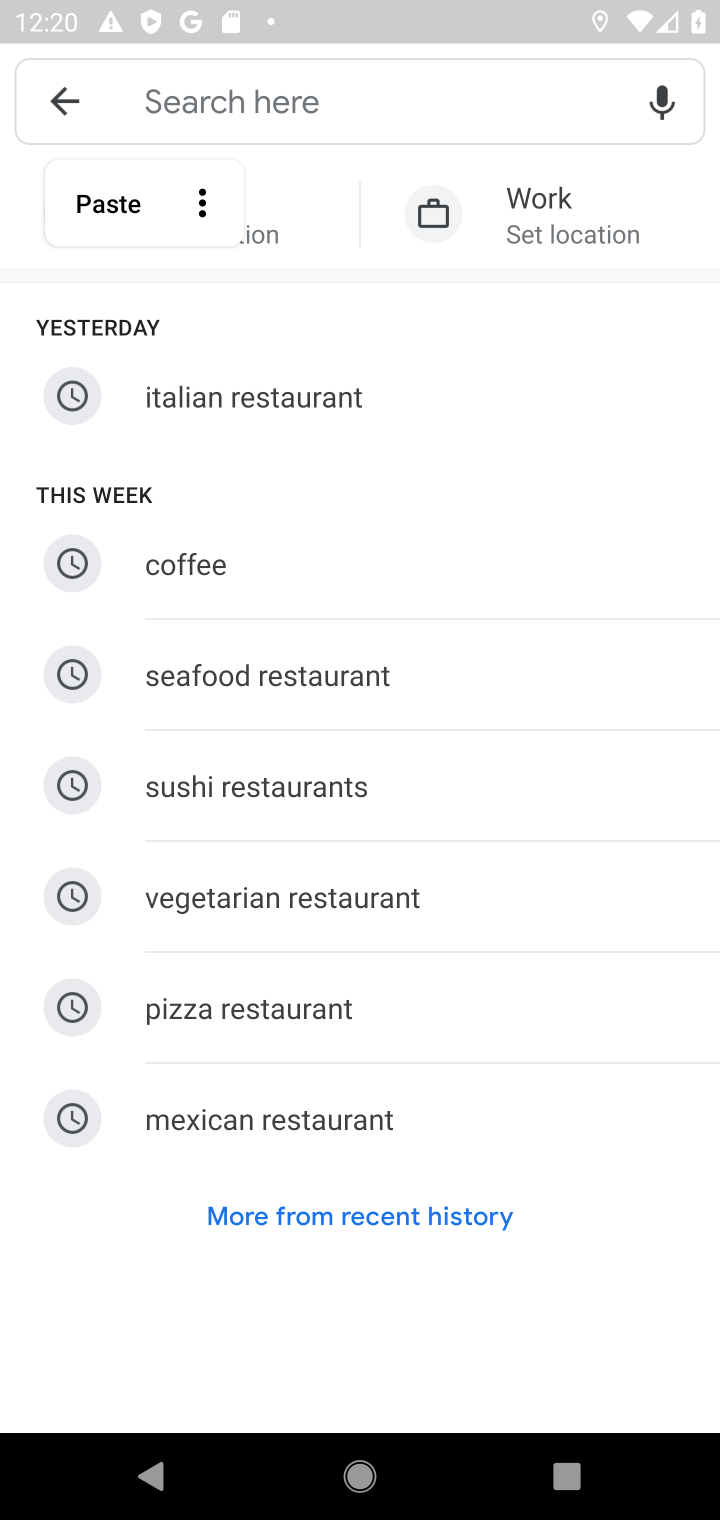
Step 30: click (248, 894)
Your task to perform on an android device: Search for vegetarian restaurants on Maps Image 31: 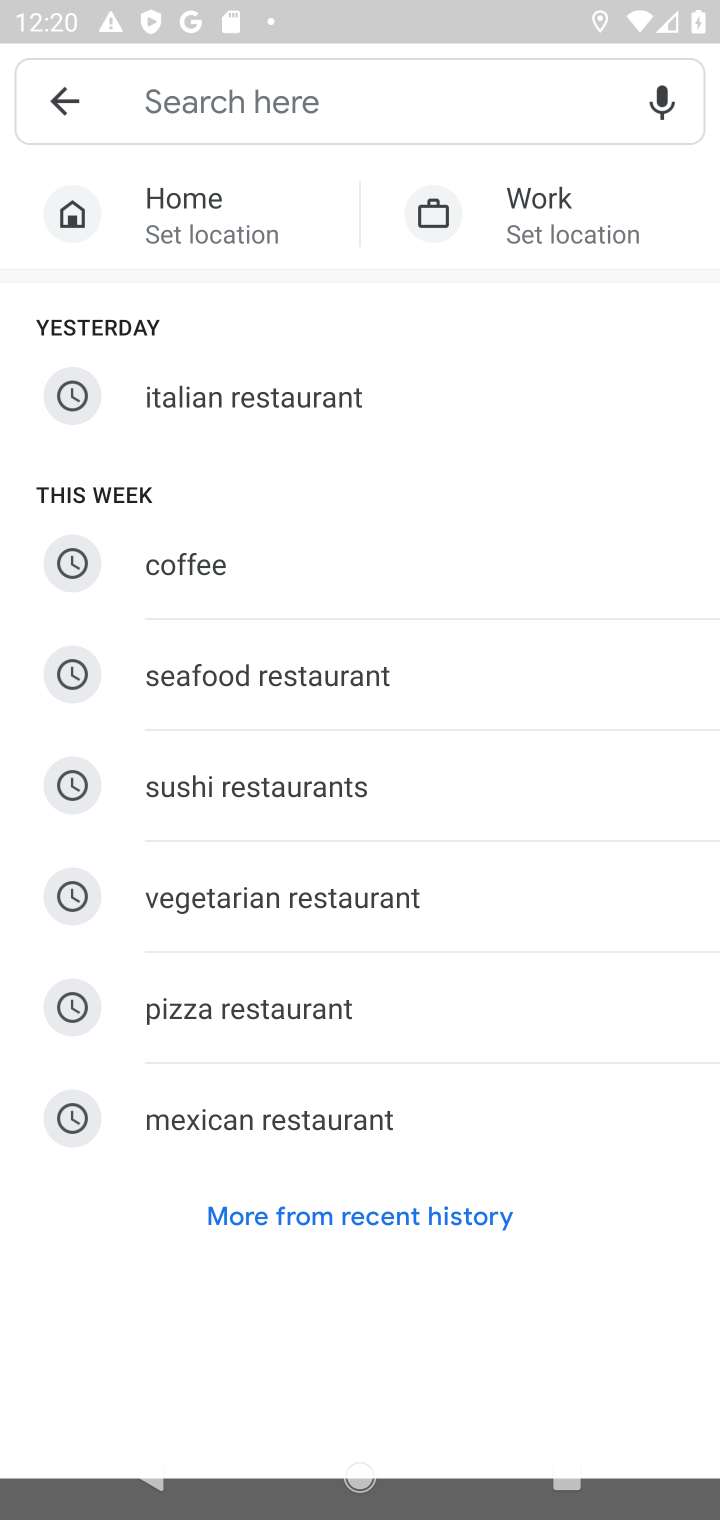
Step 31: click (248, 894)
Your task to perform on an android device: Search for vegetarian restaurants on Maps Image 32: 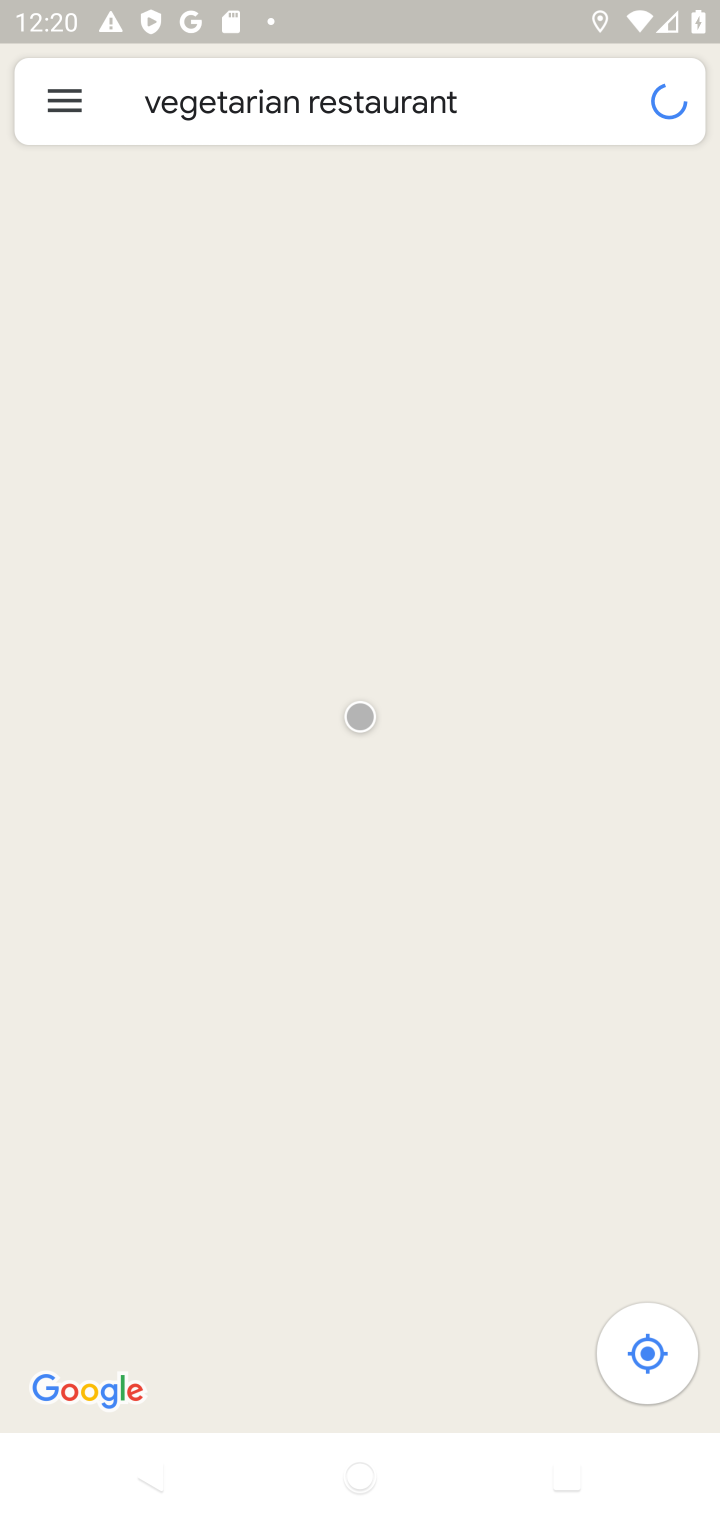
Step 32: click (248, 894)
Your task to perform on an android device: Search for vegetarian restaurants on Maps Image 33: 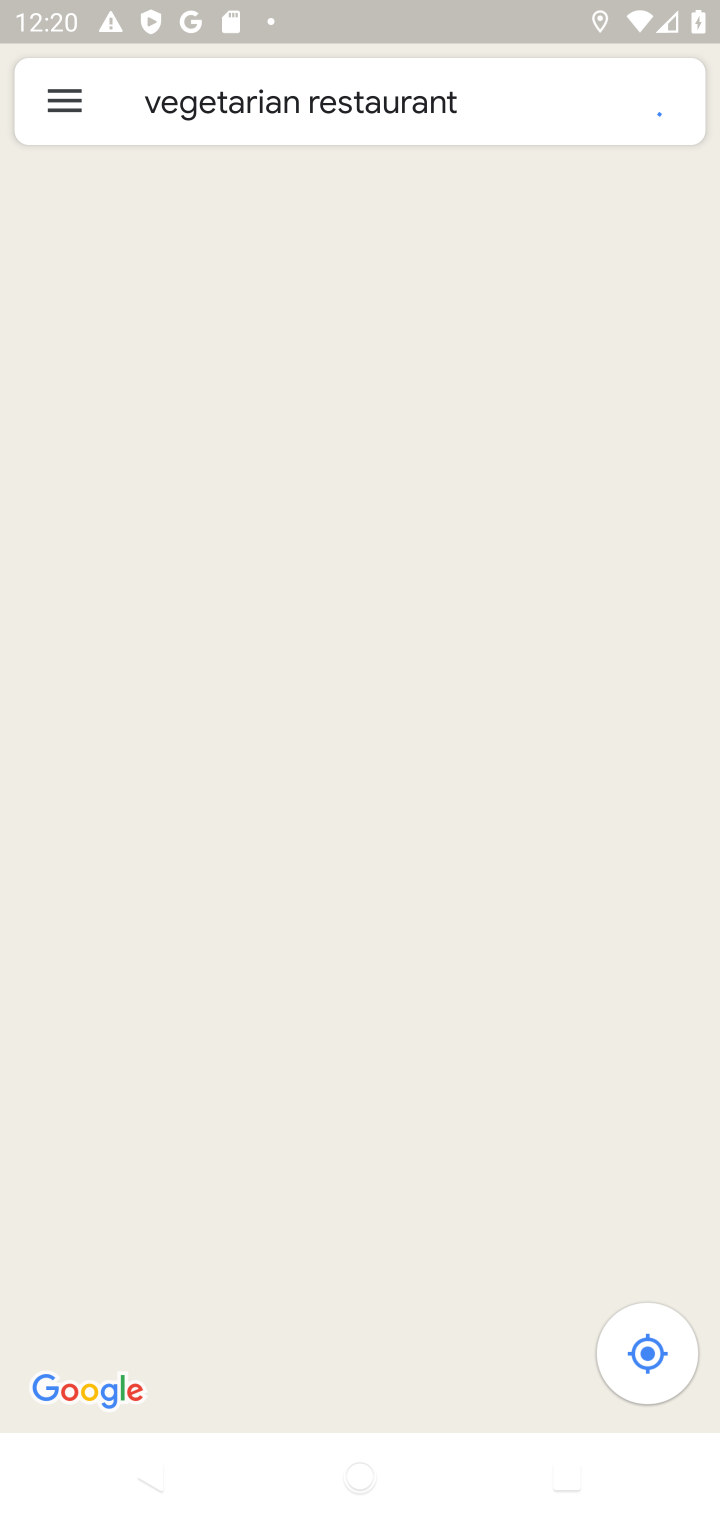
Step 33: click (248, 894)
Your task to perform on an android device: Search for vegetarian restaurants on Maps Image 34: 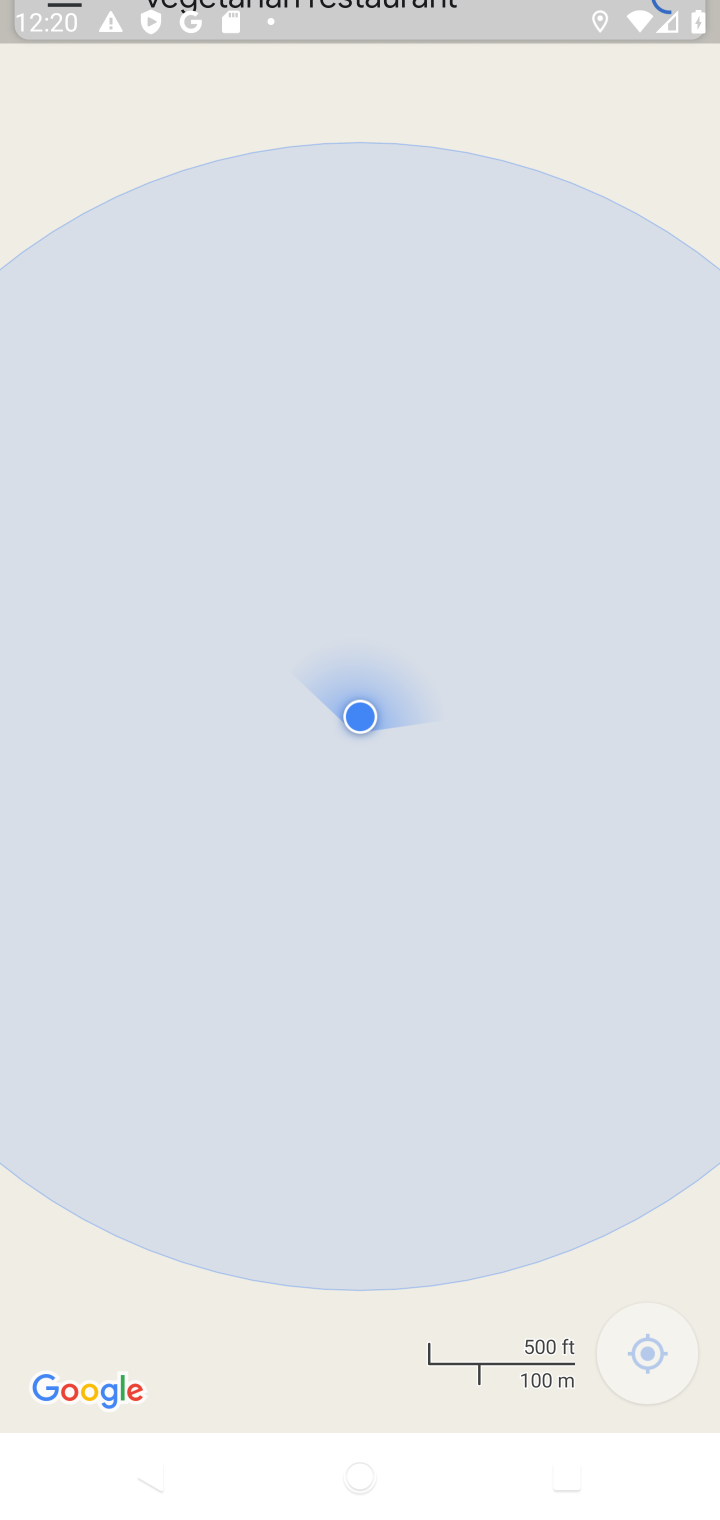
Step 34: task complete